Your task to perform on an android device: Add "dell xps" to the cart on bestbuy, then select checkout. Image 0: 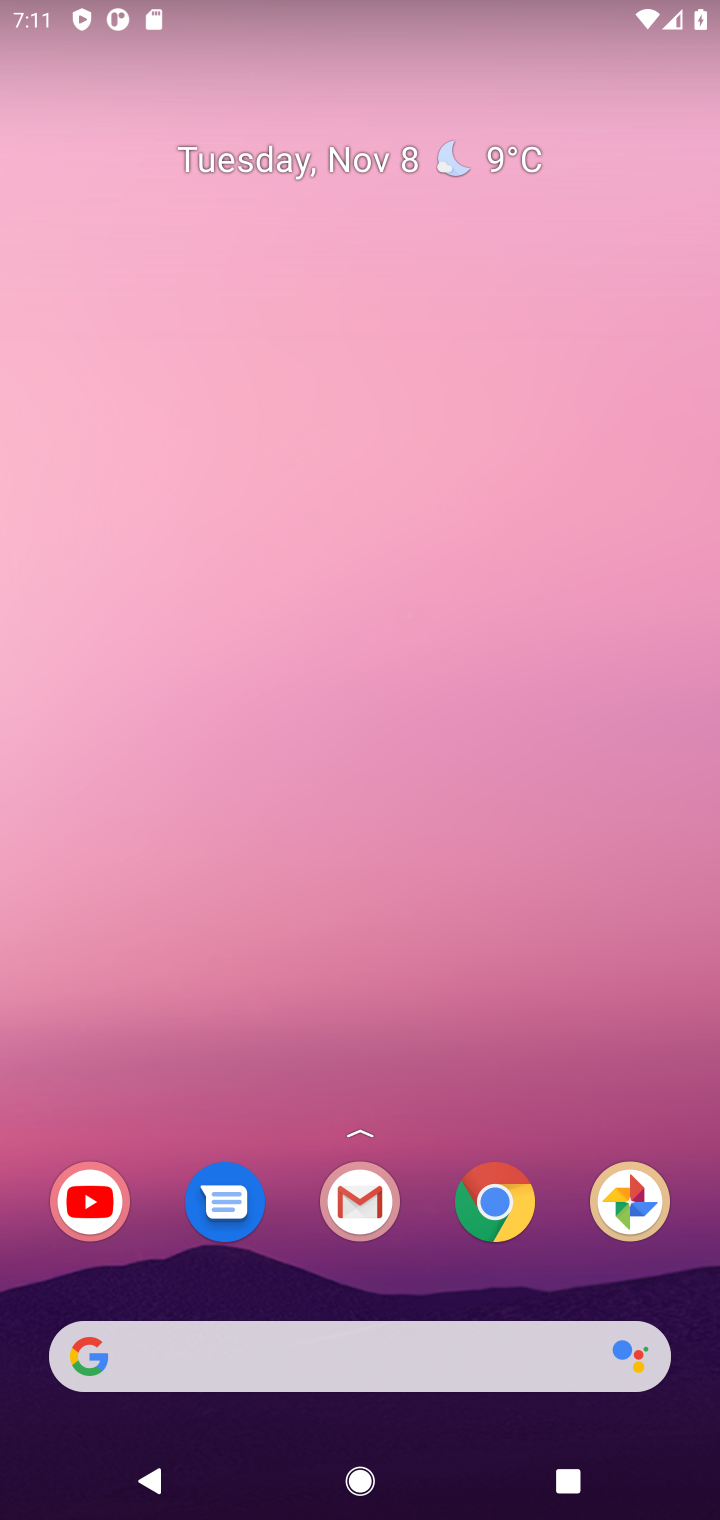
Step 0: click (294, 1347)
Your task to perform on an android device: Add "dell xps" to the cart on bestbuy, then select checkout. Image 1: 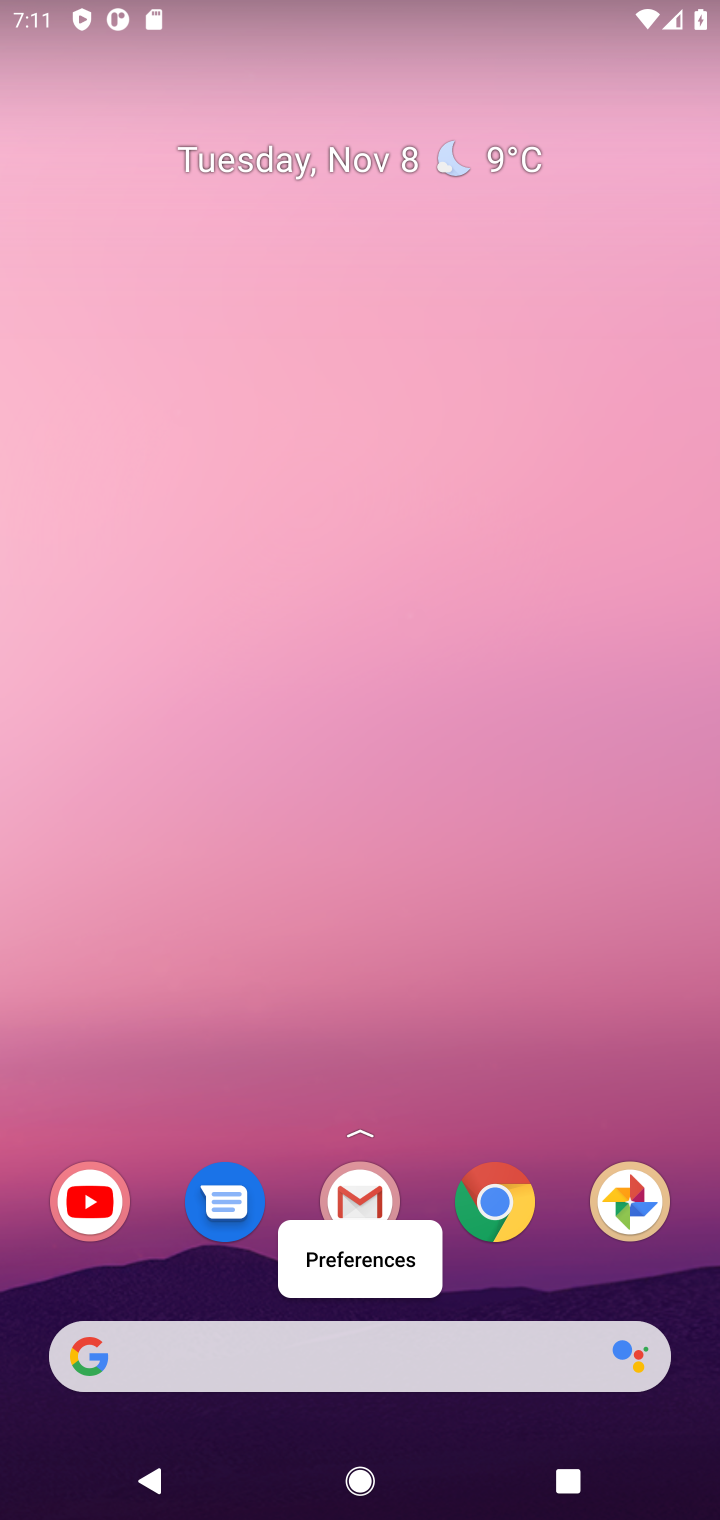
Step 1: click (294, 1347)
Your task to perform on an android device: Add "dell xps" to the cart on bestbuy, then select checkout. Image 2: 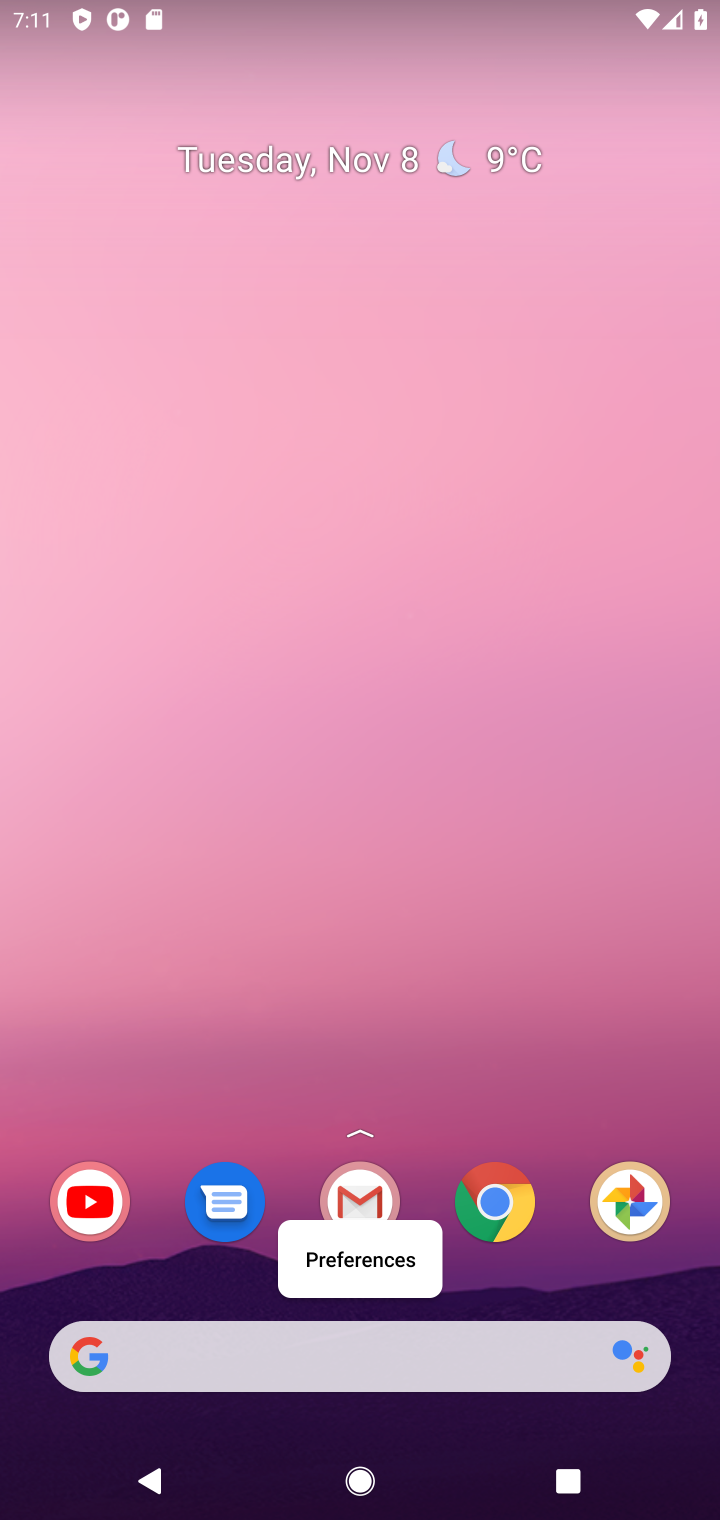
Step 2: click (319, 1355)
Your task to perform on an android device: Add "dell xps" to the cart on bestbuy, then select checkout. Image 3: 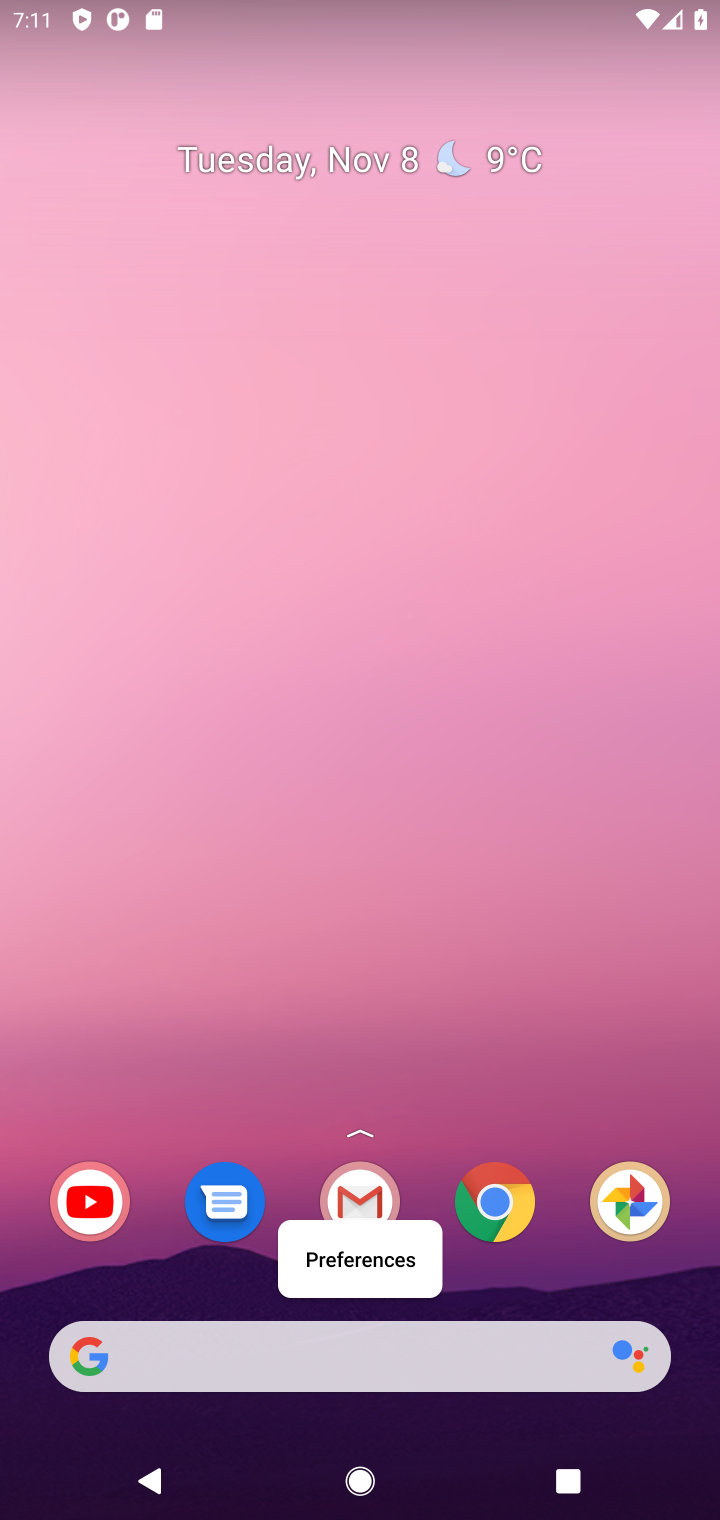
Step 3: click (321, 1353)
Your task to perform on an android device: Add "dell xps" to the cart on bestbuy, then select checkout. Image 4: 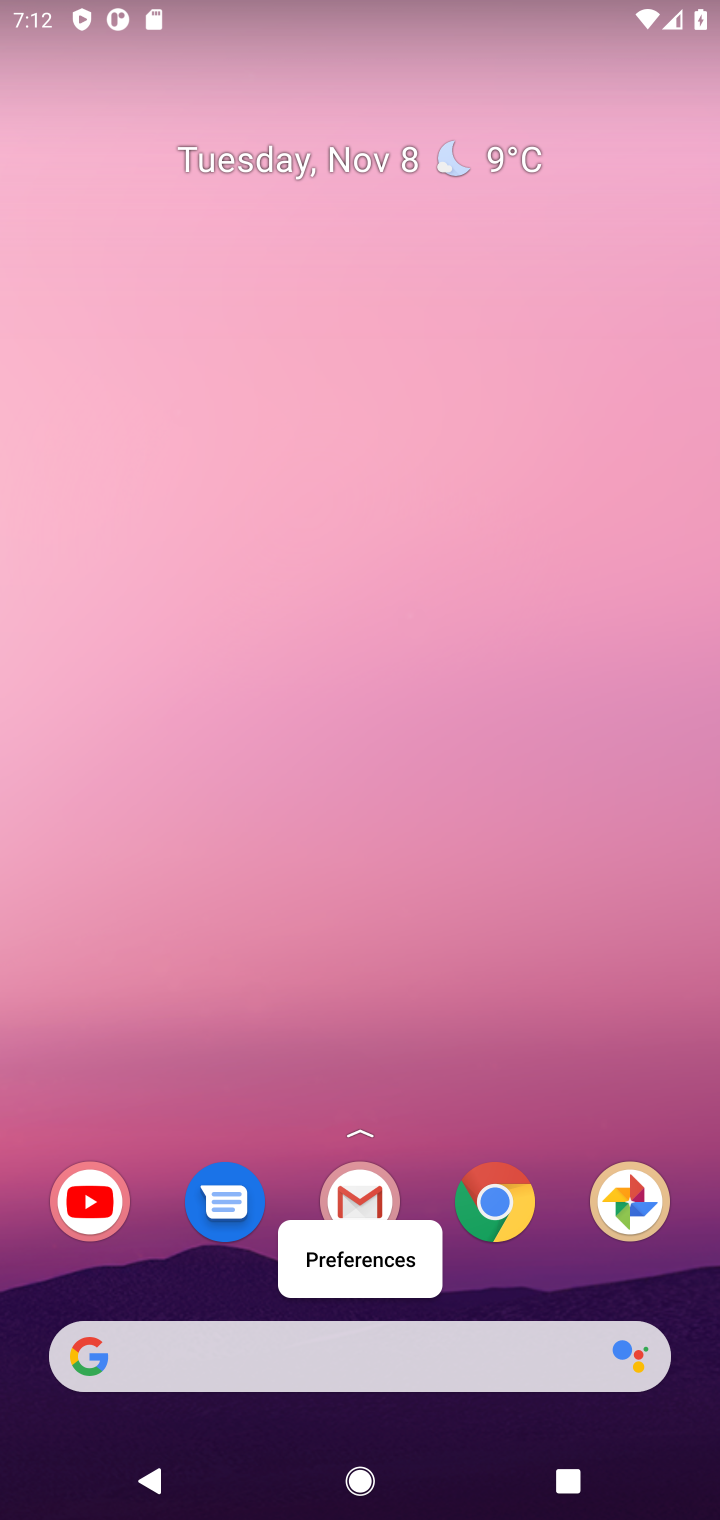
Step 4: click (321, 1353)
Your task to perform on an android device: Add "dell xps" to the cart on bestbuy, then select checkout. Image 5: 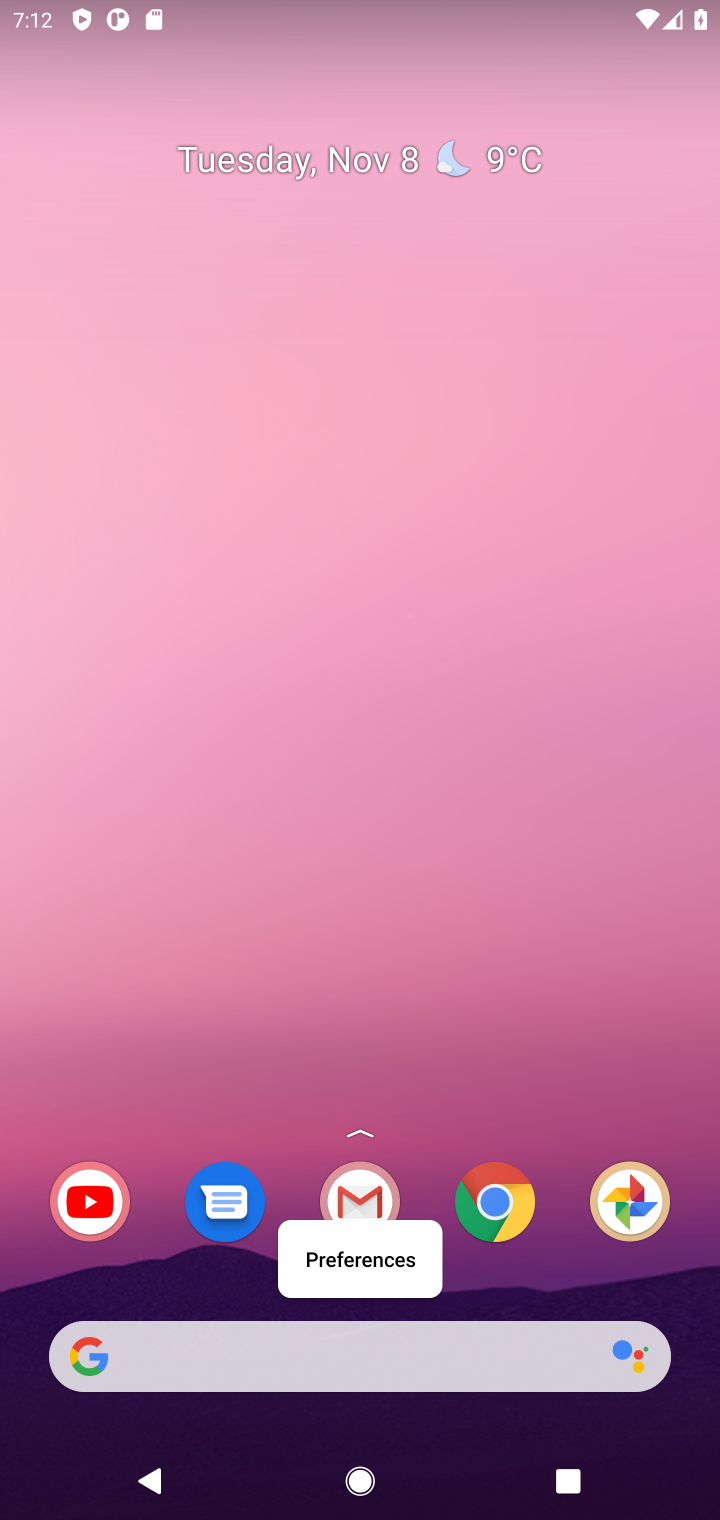
Step 5: click (321, 1353)
Your task to perform on an android device: Add "dell xps" to the cart on bestbuy, then select checkout. Image 6: 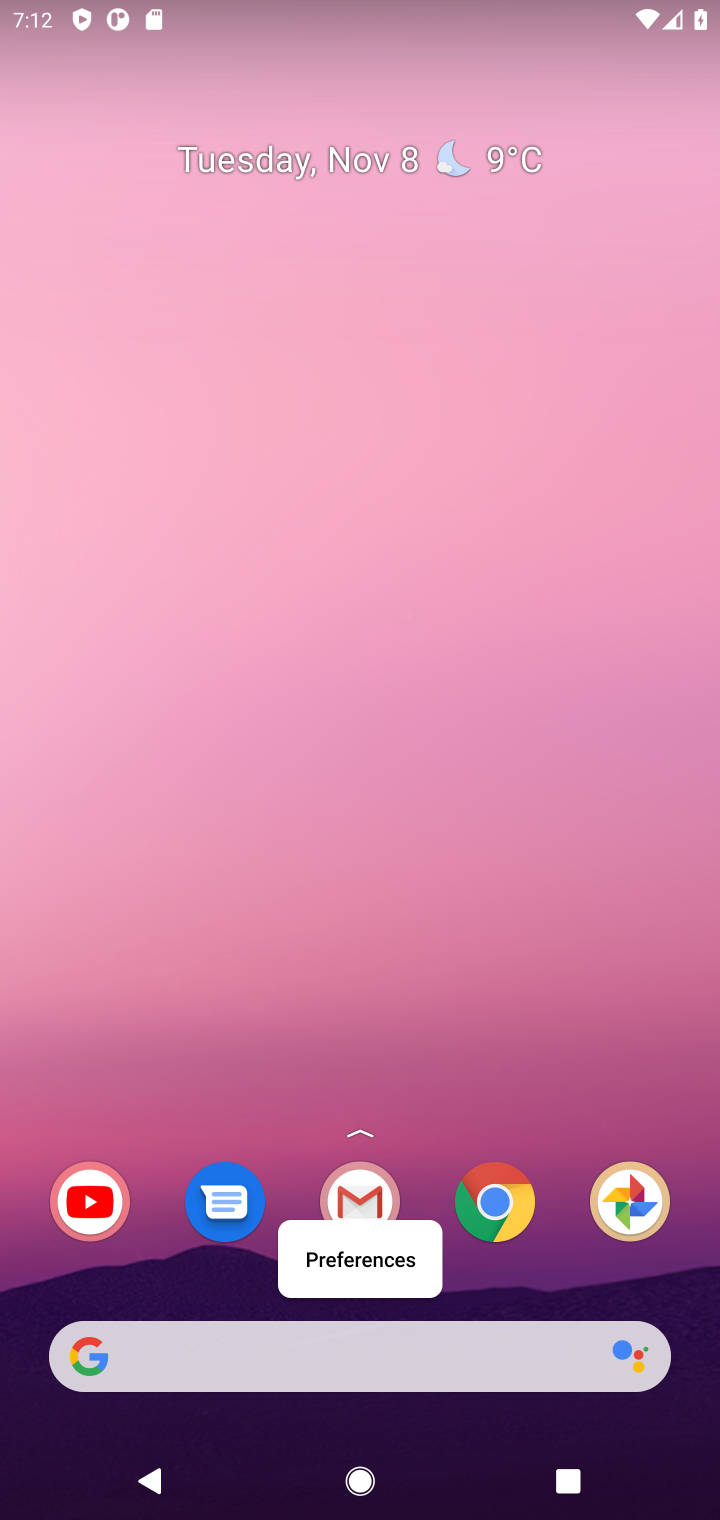
Step 6: click (512, 883)
Your task to perform on an android device: Add "dell xps" to the cart on bestbuy, then select checkout. Image 7: 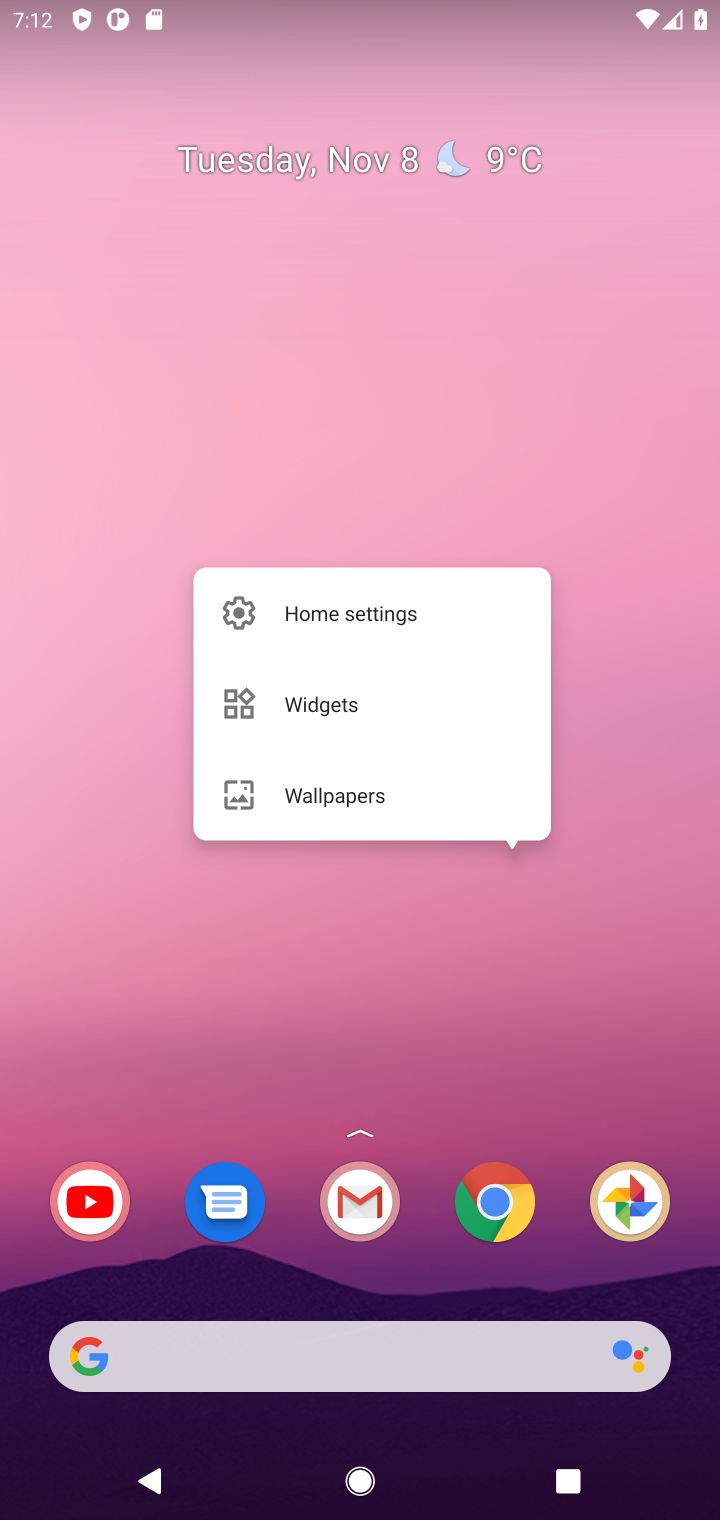
Step 7: click (307, 1357)
Your task to perform on an android device: Add "dell xps" to the cart on bestbuy, then select checkout. Image 8: 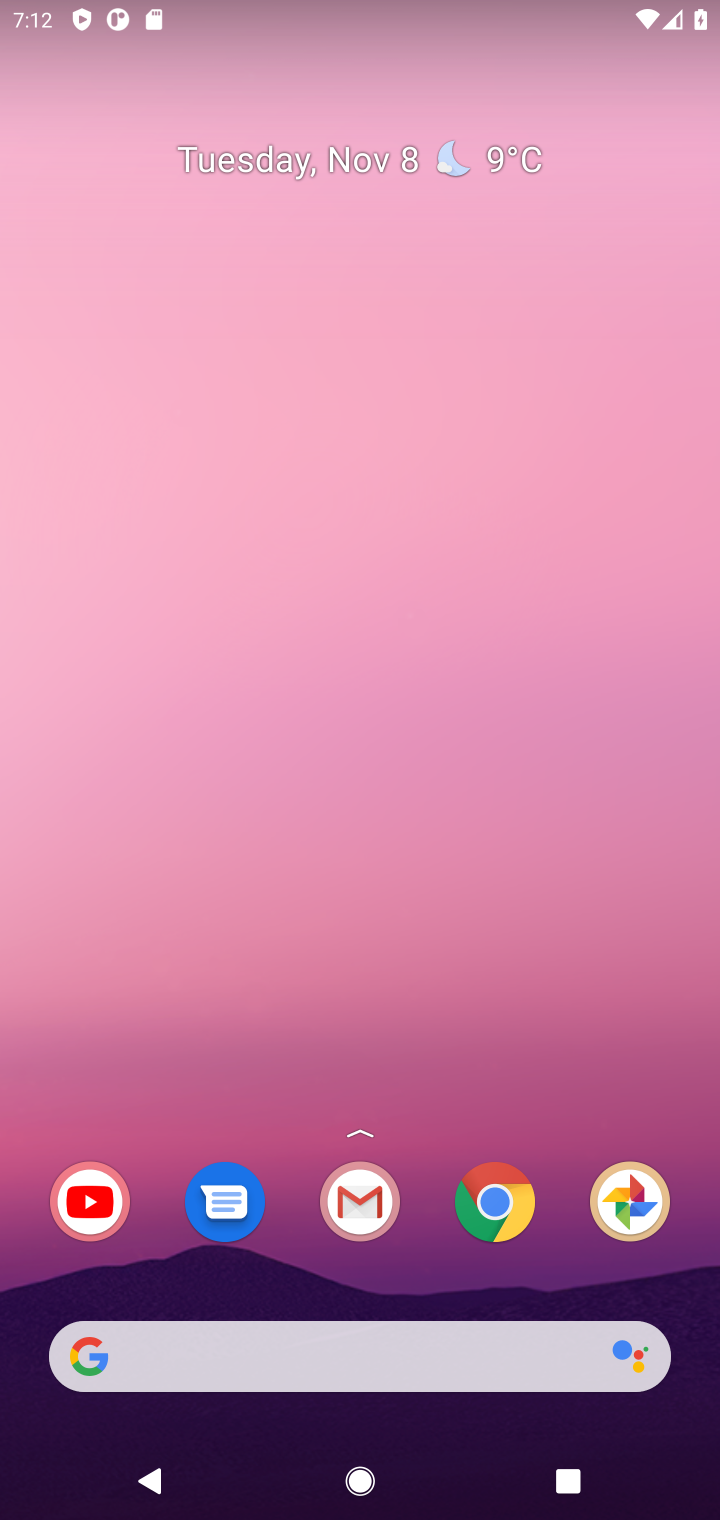
Step 8: click (307, 1357)
Your task to perform on an android device: Add "dell xps" to the cart on bestbuy, then select checkout. Image 9: 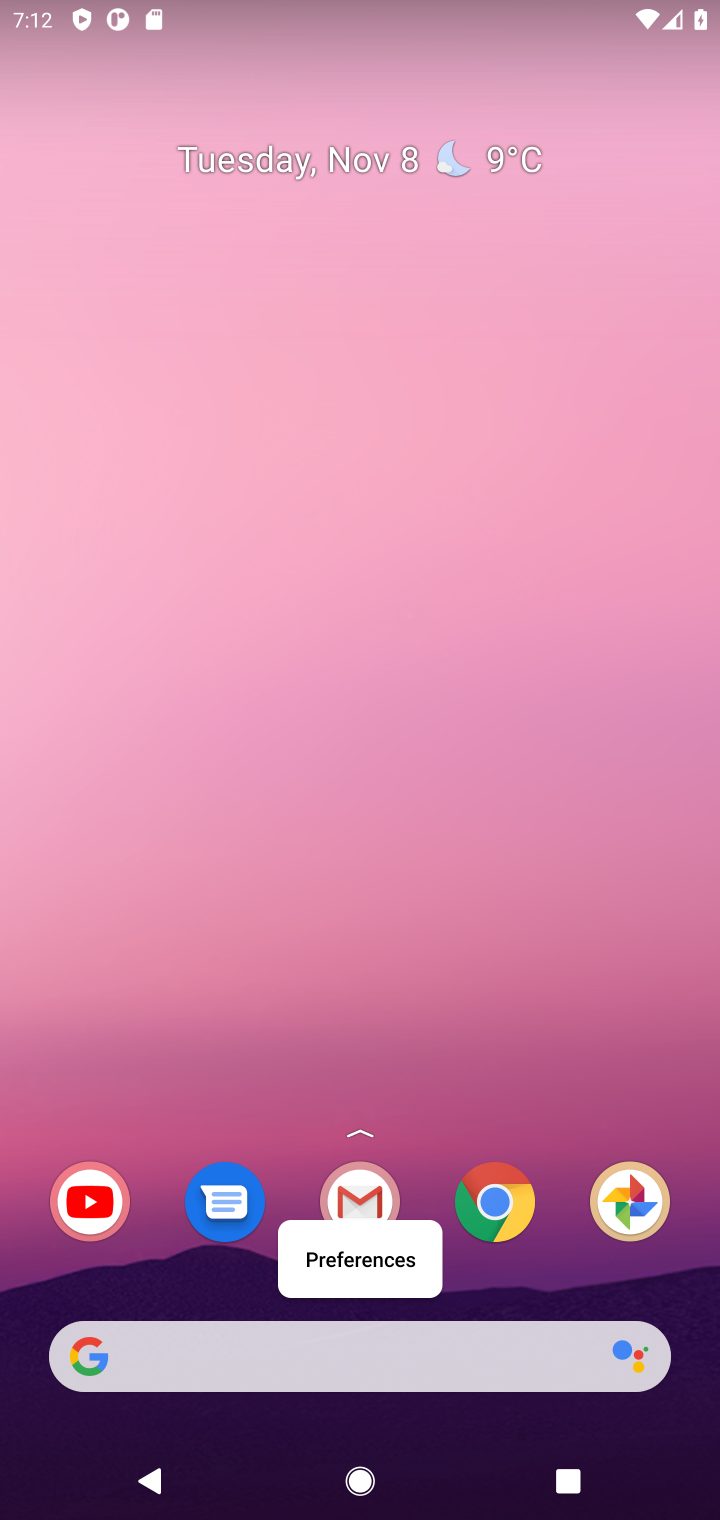
Step 9: click (307, 1357)
Your task to perform on an android device: Add "dell xps" to the cart on bestbuy, then select checkout. Image 10: 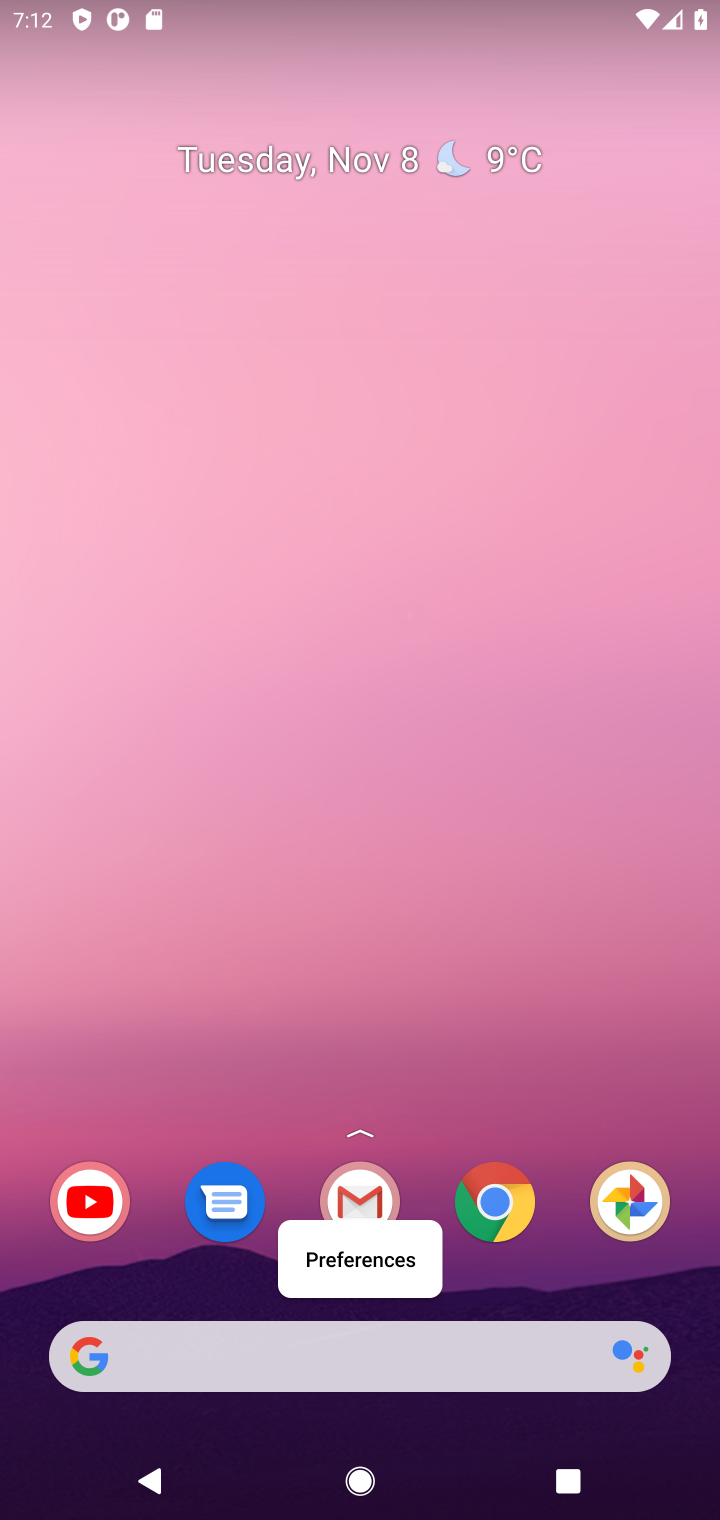
Step 10: click (260, 1359)
Your task to perform on an android device: Add "dell xps" to the cart on bestbuy, then select checkout. Image 11: 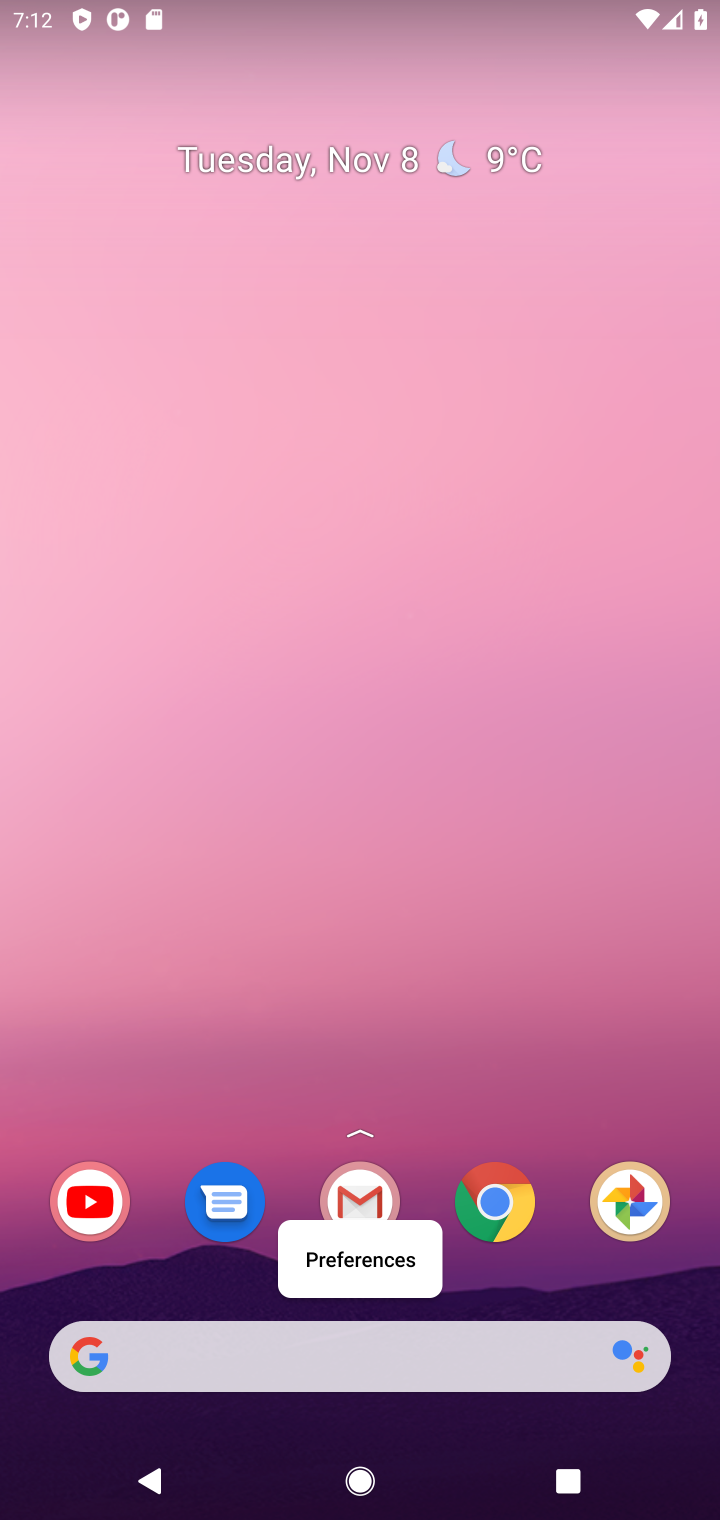
Step 11: click (260, 1359)
Your task to perform on an android device: Add "dell xps" to the cart on bestbuy, then select checkout. Image 12: 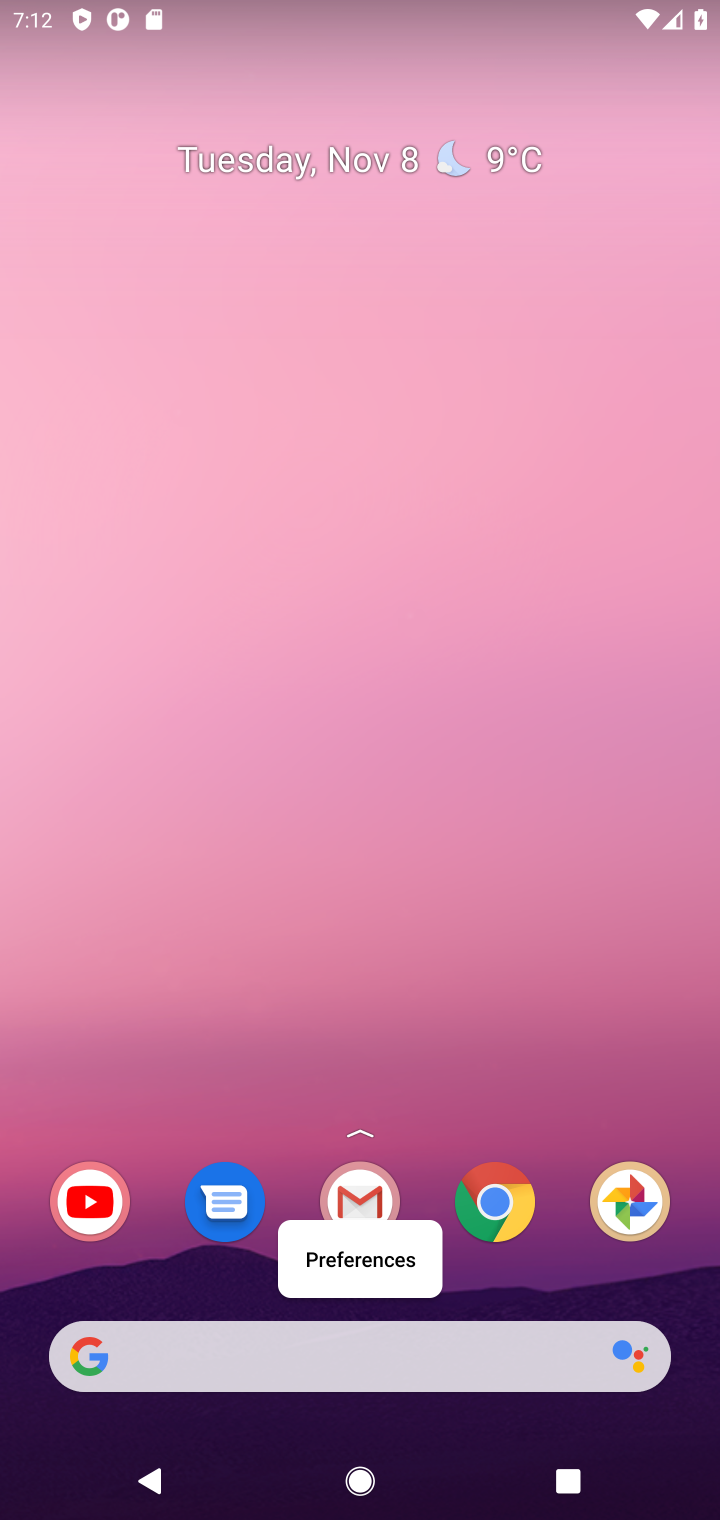
Step 12: click (94, 1119)
Your task to perform on an android device: Add "dell xps" to the cart on bestbuy, then select checkout. Image 13: 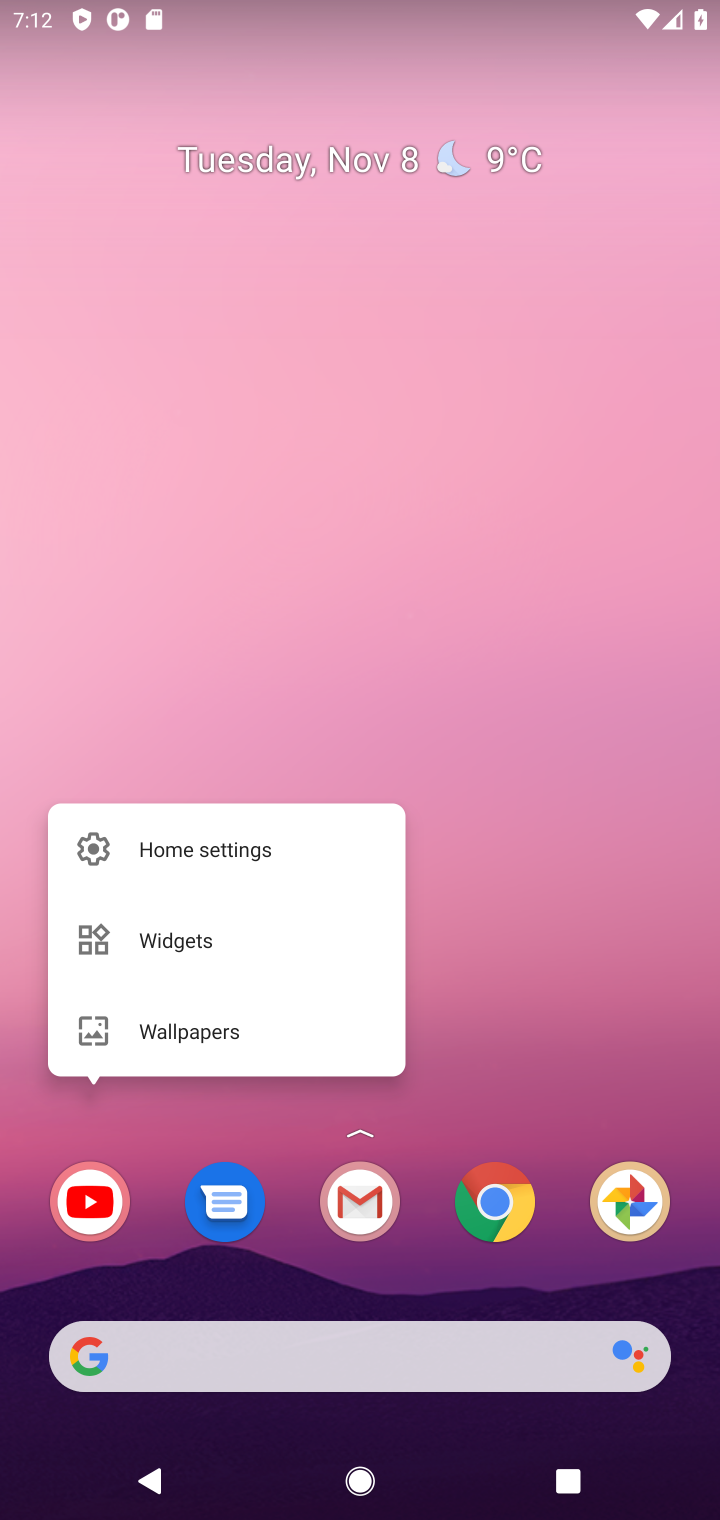
Step 13: click (195, 1342)
Your task to perform on an android device: Add "dell xps" to the cart on bestbuy, then select checkout. Image 14: 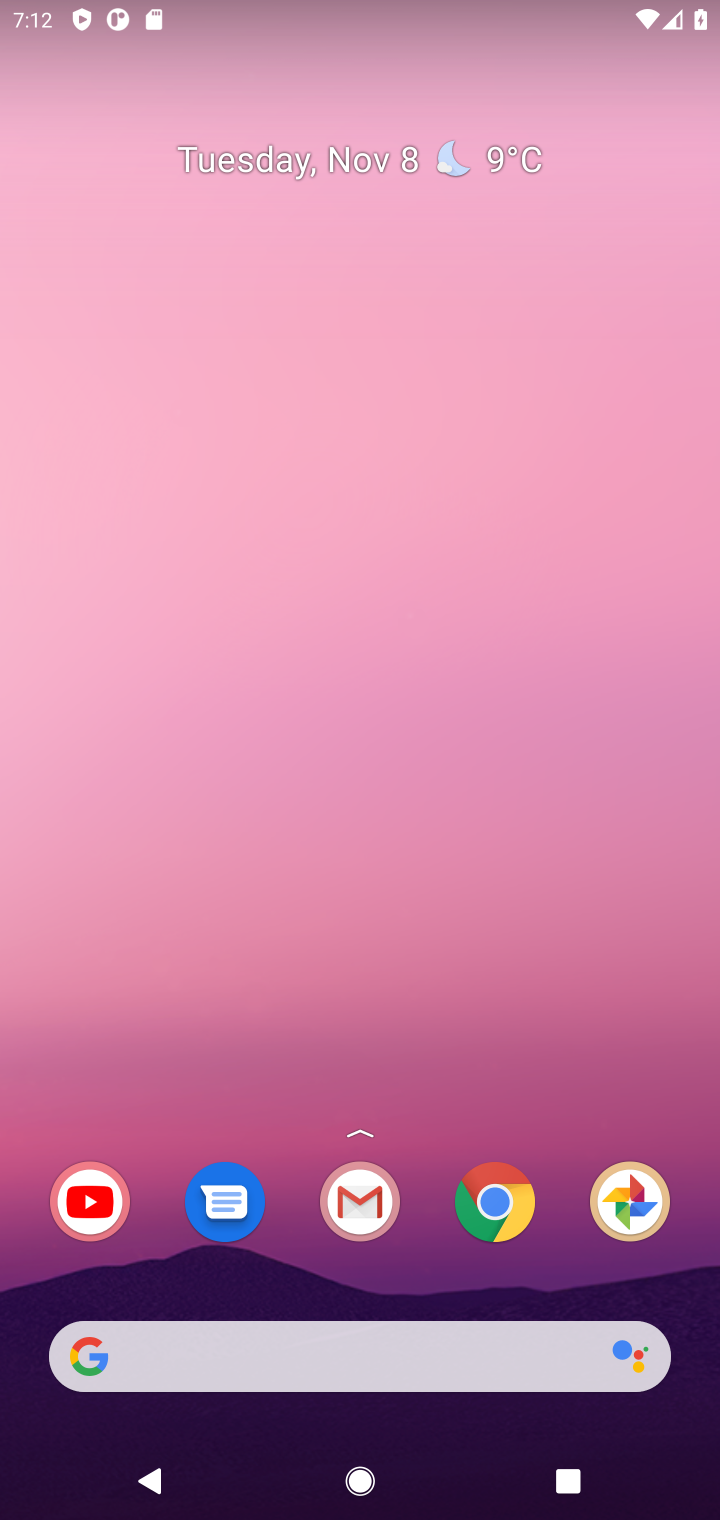
Step 14: click (482, 1213)
Your task to perform on an android device: Add "dell xps" to the cart on bestbuy, then select checkout. Image 15: 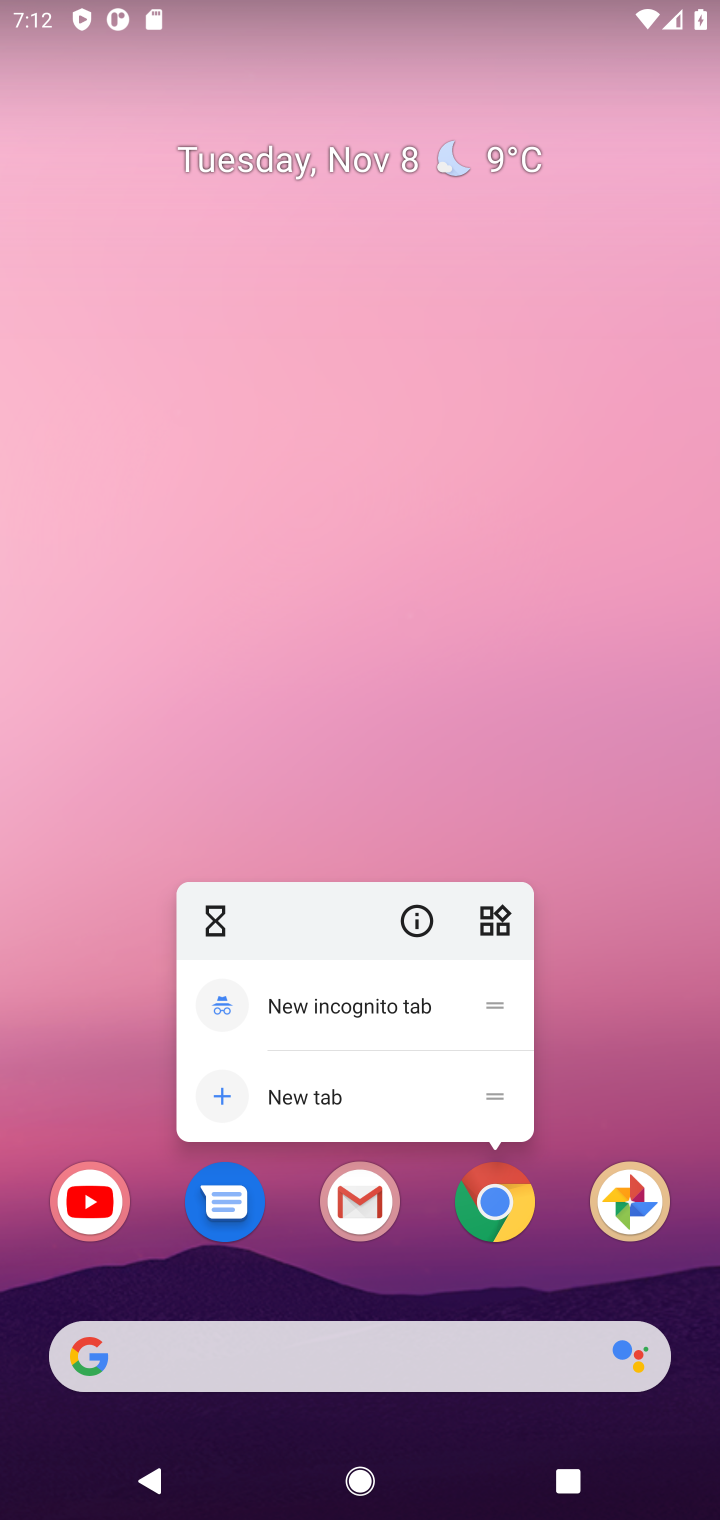
Step 15: click (485, 1211)
Your task to perform on an android device: Add "dell xps" to the cart on bestbuy, then select checkout. Image 16: 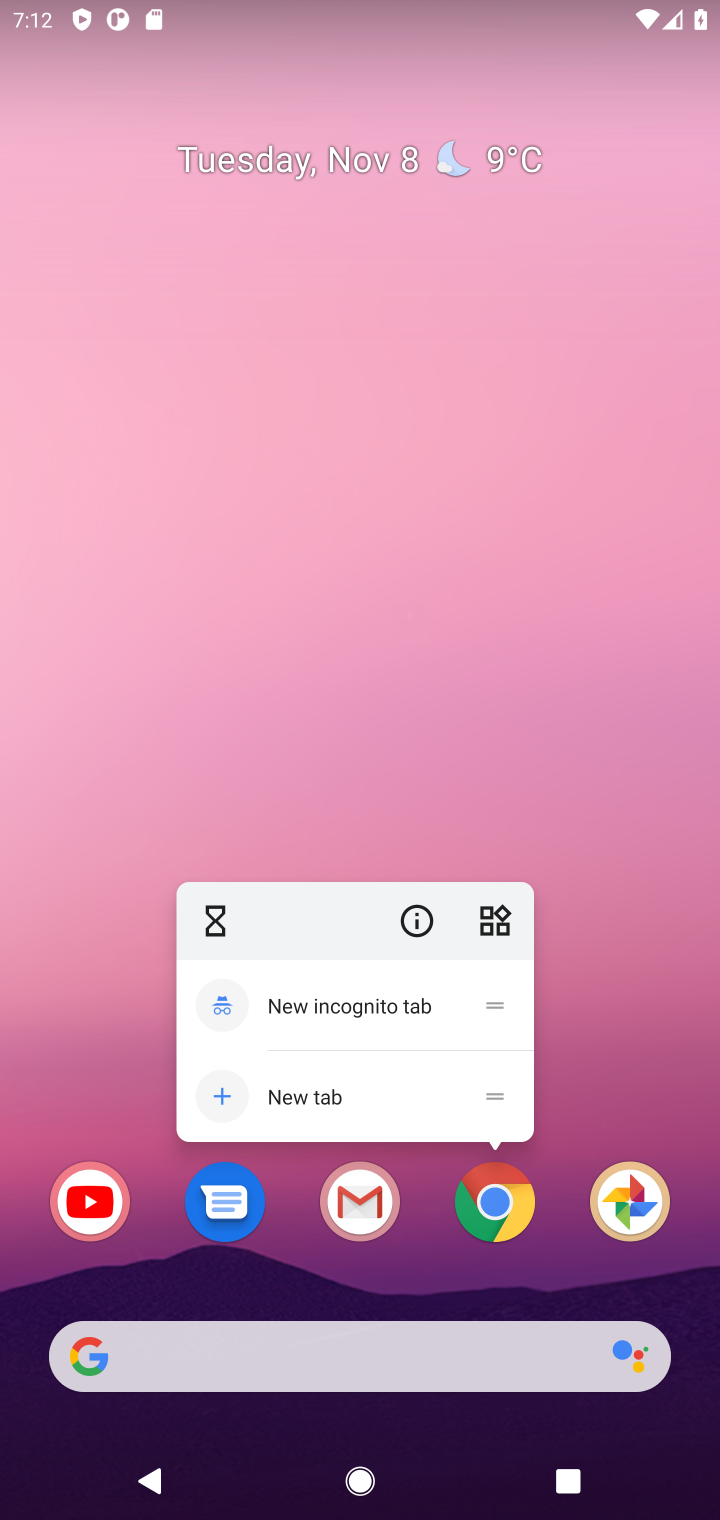
Step 16: click (480, 1197)
Your task to perform on an android device: Add "dell xps" to the cart on bestbuy, then select checkout. Image 17: 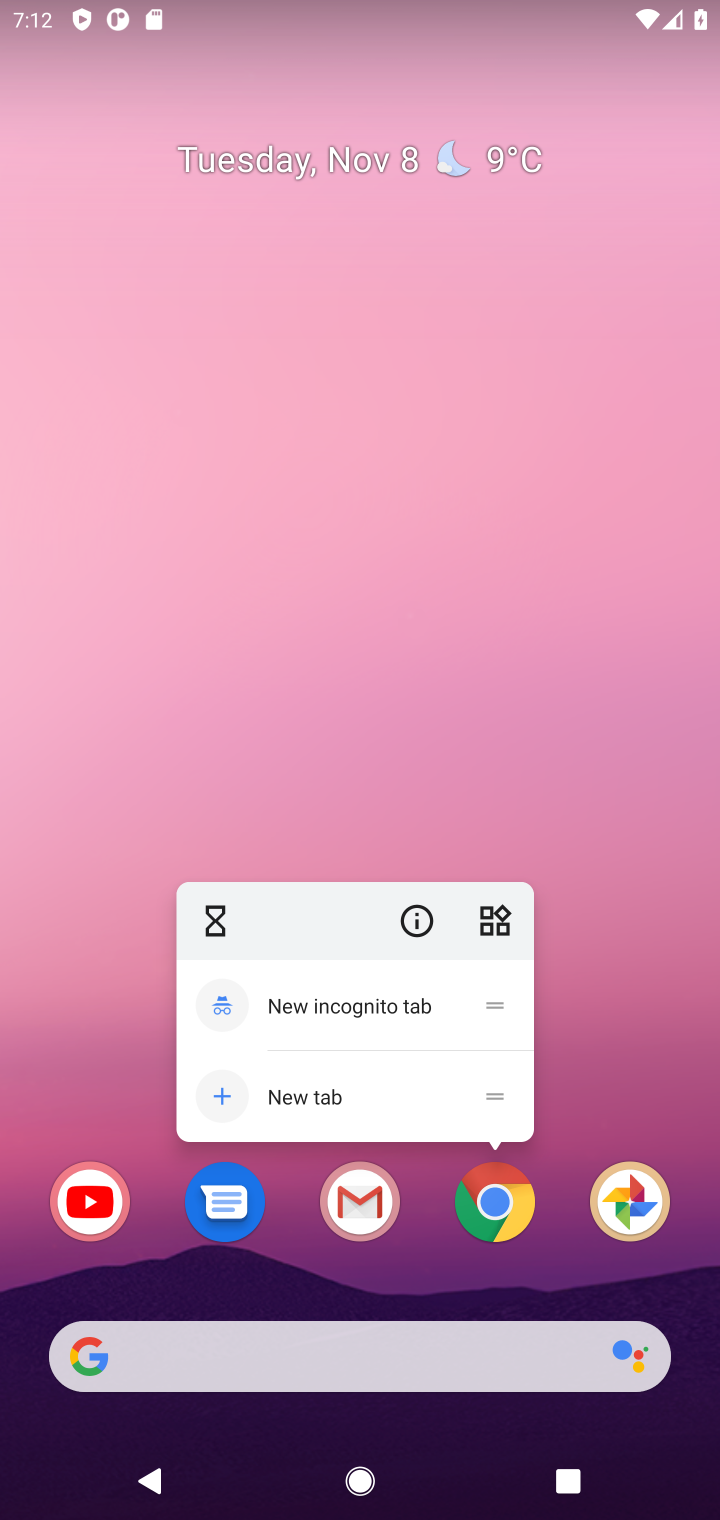
Step 17: click (344, 1340)
Your task to perform on an android device: Add "dell xps" to the cart on bestbuy, then select checkout. Image 18: 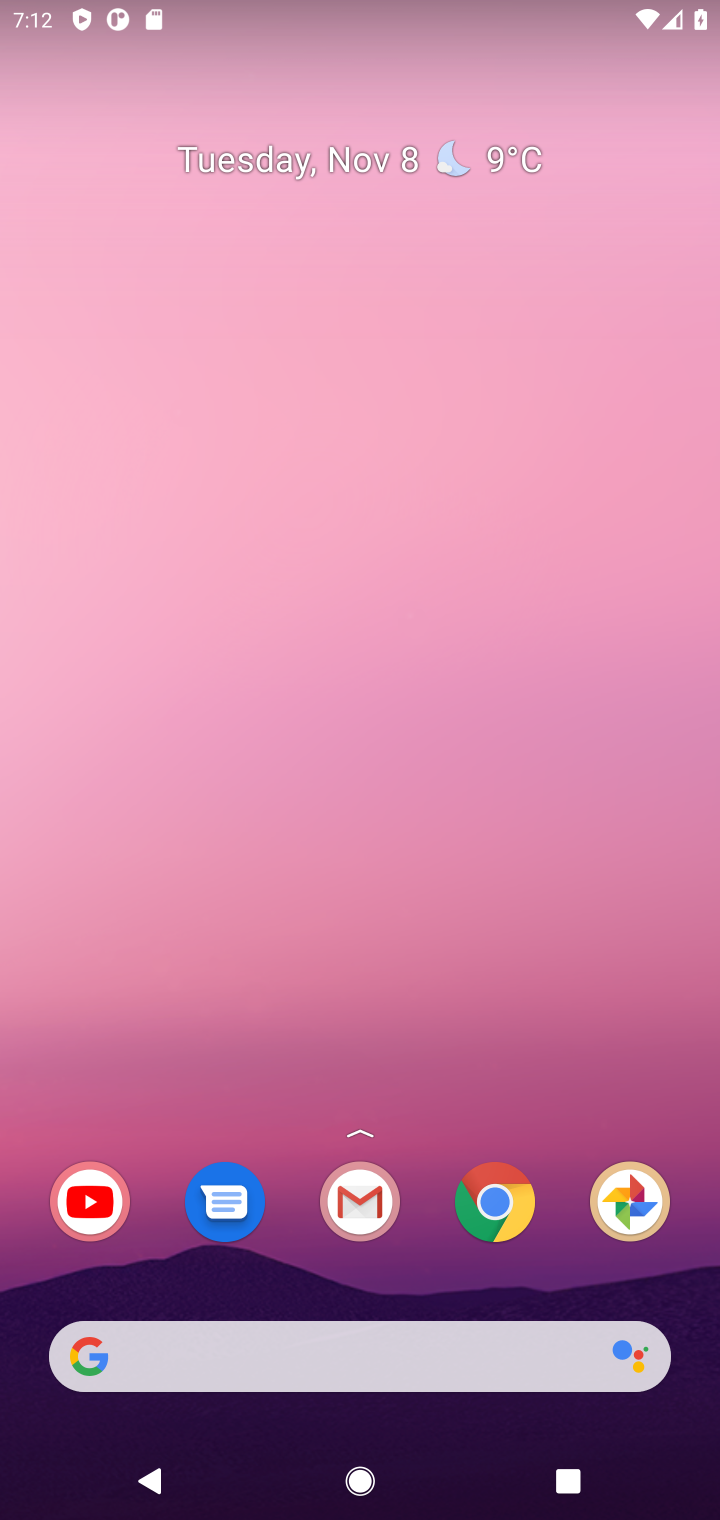
Step 18: click (344, 1340)
Your task to perform on an android device: Add "dell xps" to the cart on bestbuy, then select checkout. Image 19: 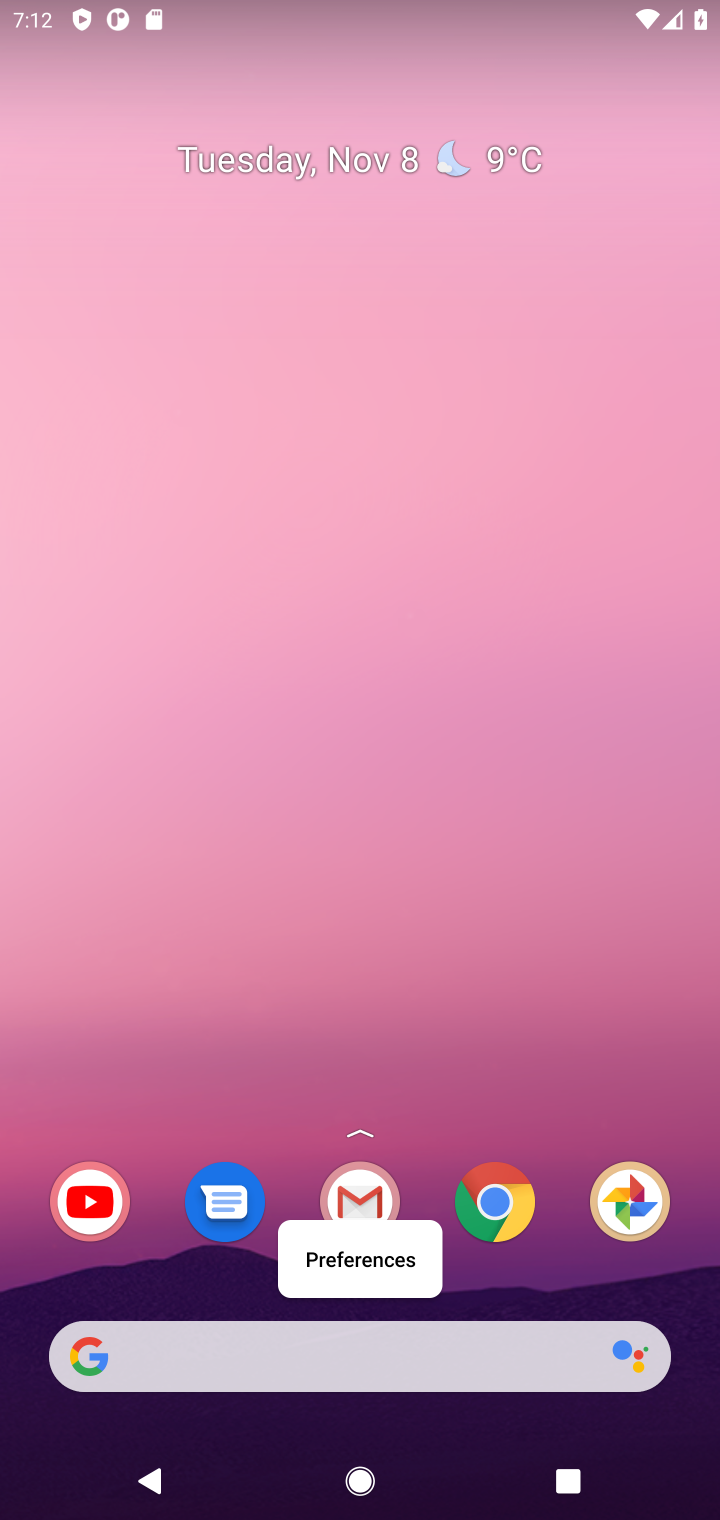
Step 19: click (273, 1354)
Your task to perform on an android device: Add "dell xps" to the cart on bestbuy, then select checkout. Image 20: 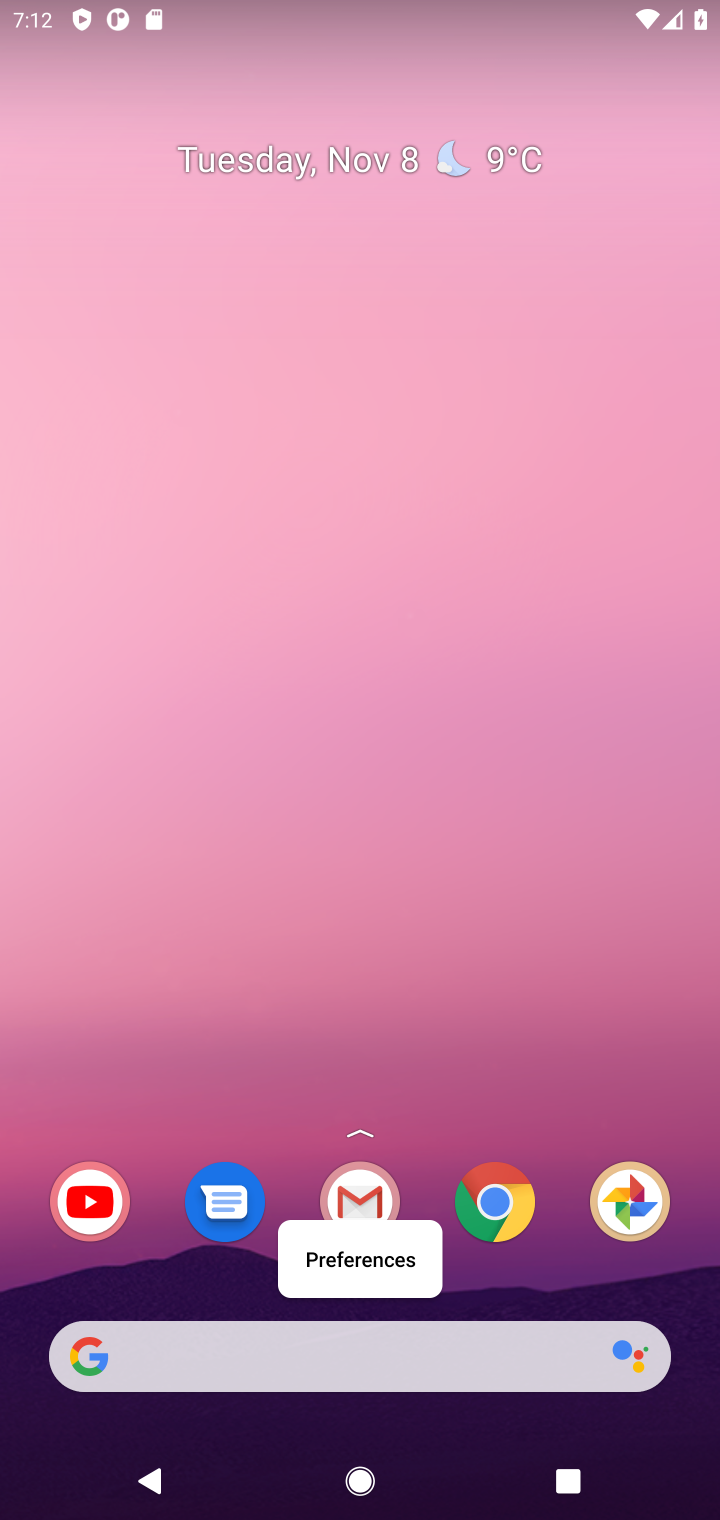
Step 20: click (275, 1352)
Your task to perform on an android device: Add "dell xps" to the cart on bestbuy, then select checkout. Image 21: 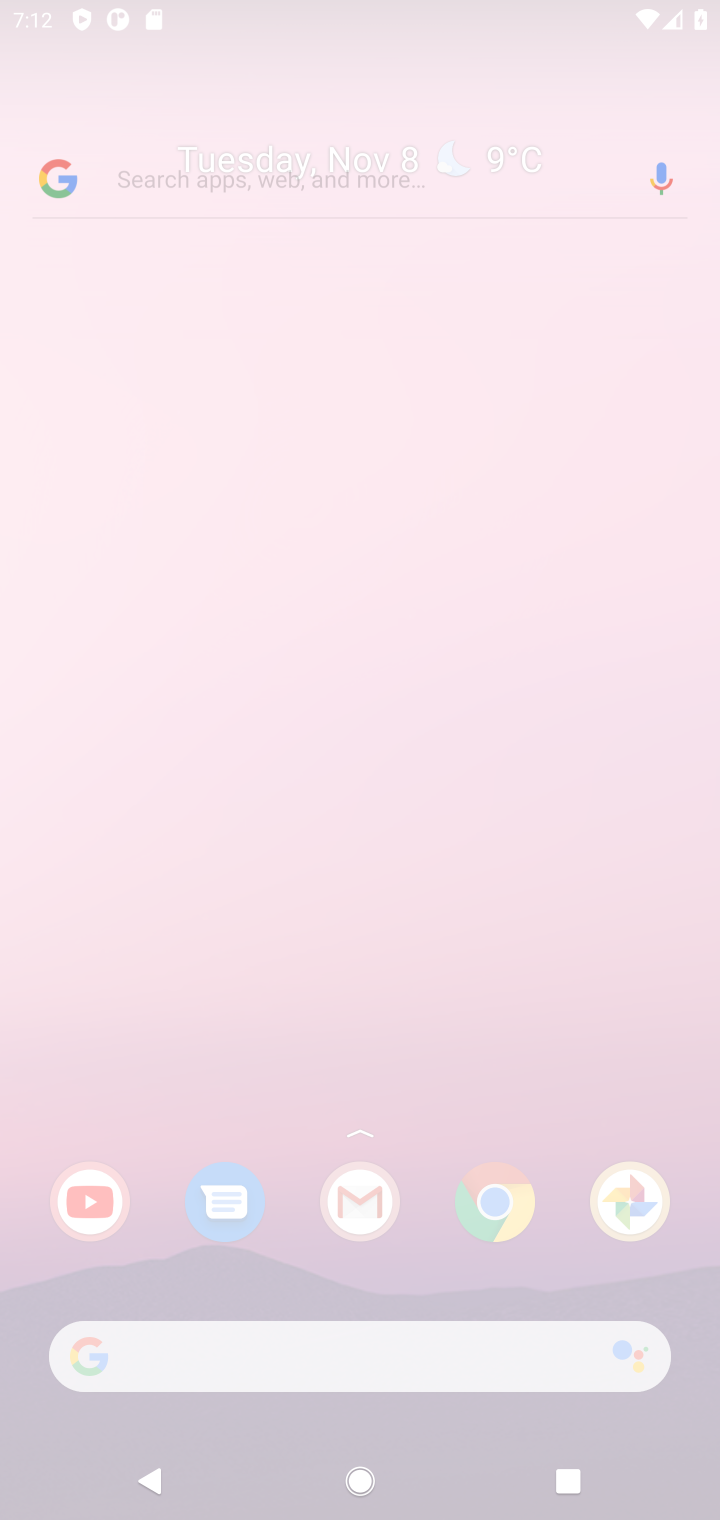
Step 21: click (275, 1352)
Your task to perform on an android device: Add "dell xps" to the cart on bestbuy, then select checkout. Image 22: 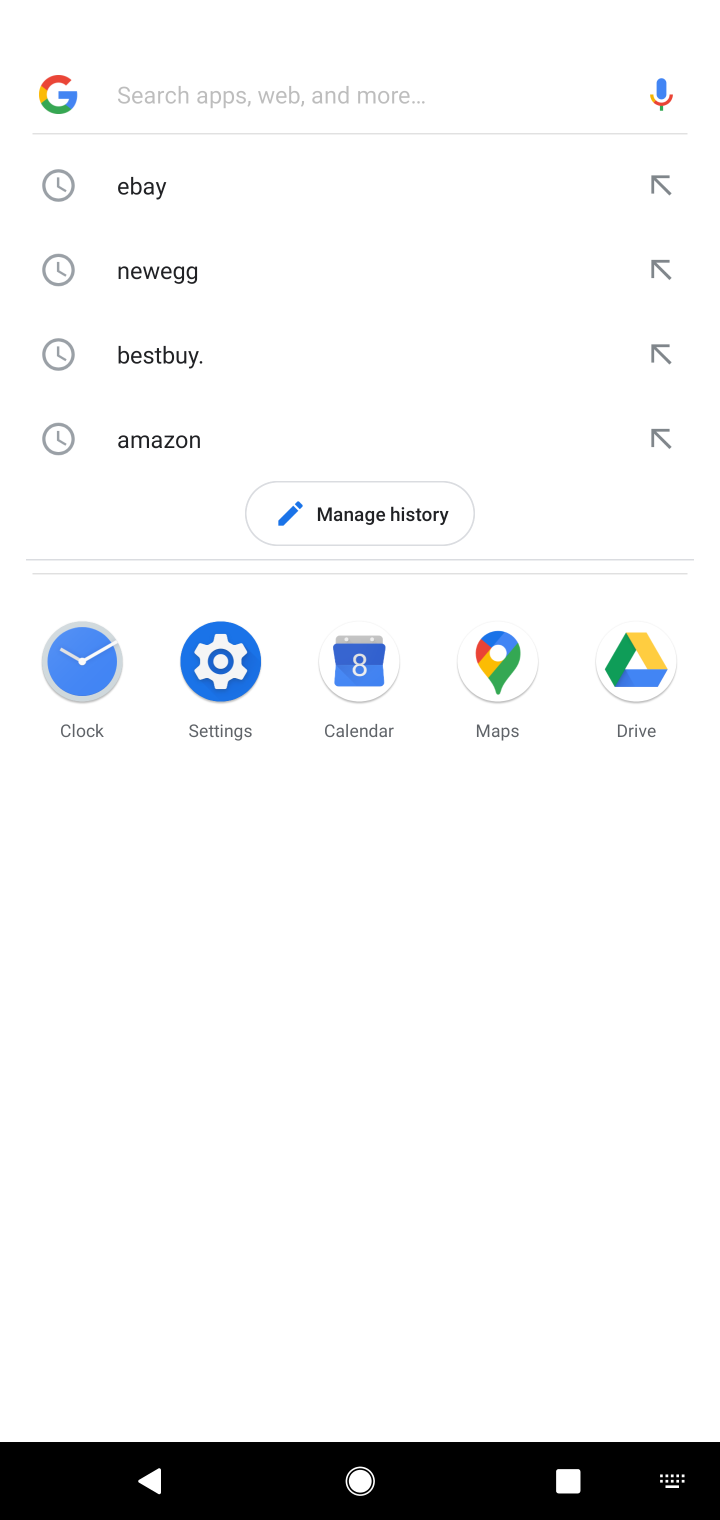
Step 22: type " bestbuy"
Your task to perform on an android device: Add "dell xps" to the cart on bestbuy, then select checkout. Image 23: 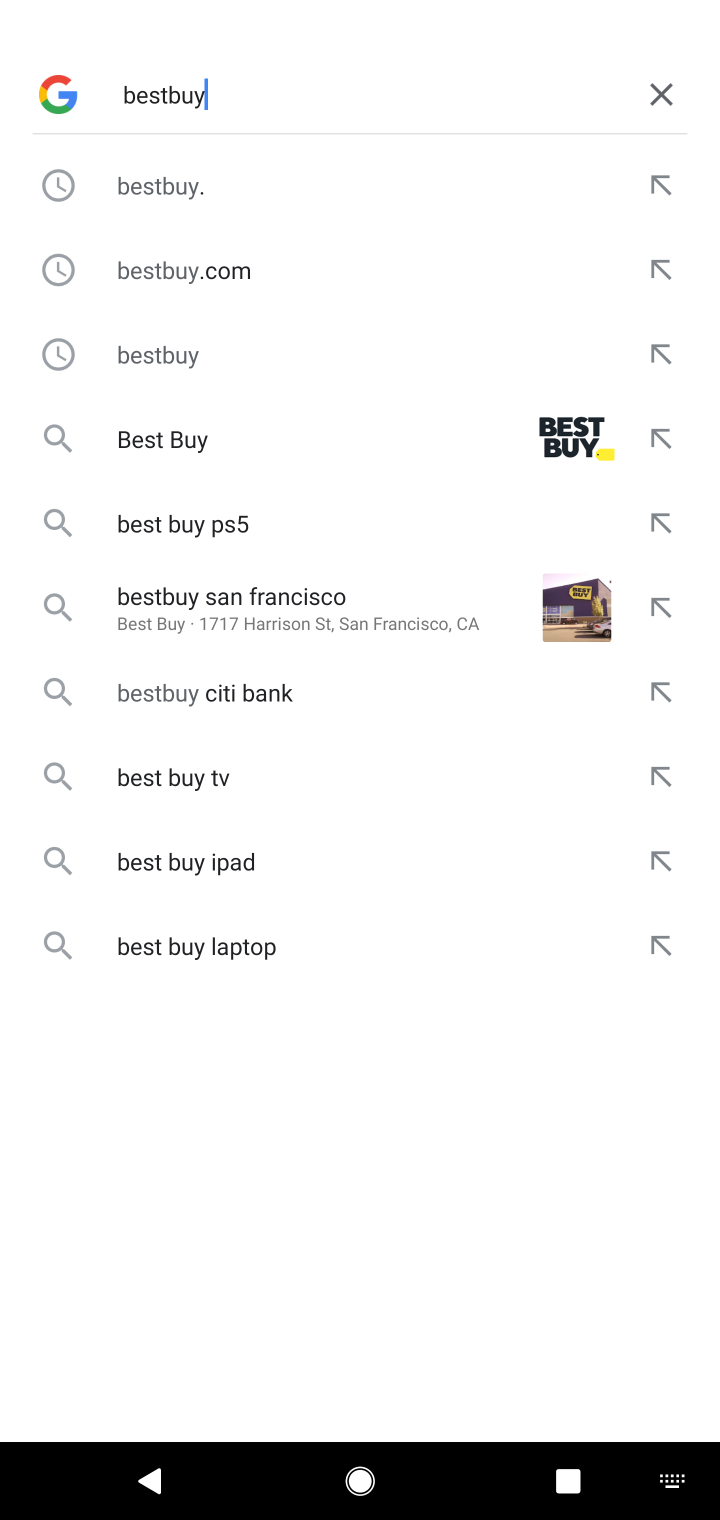
Step 23: press enter
Your task to perform on an android device: Add "dell xps" to the cart on bestbuy, then select checkout. Image 24: 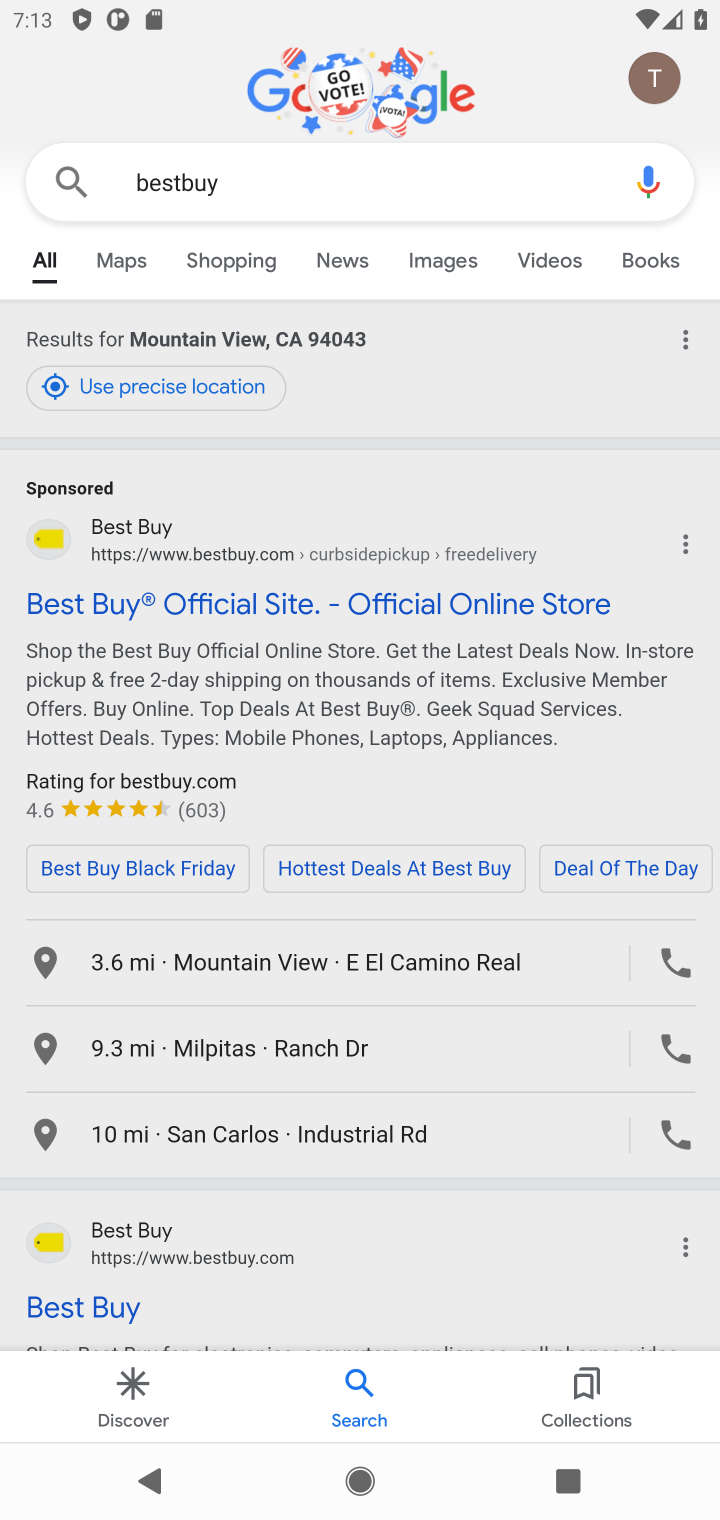
Step 24: click (175, 610)
Your task to perform on an android device: Add "dell xps" to the cart on bestbuy, then select checkout. Image 25: 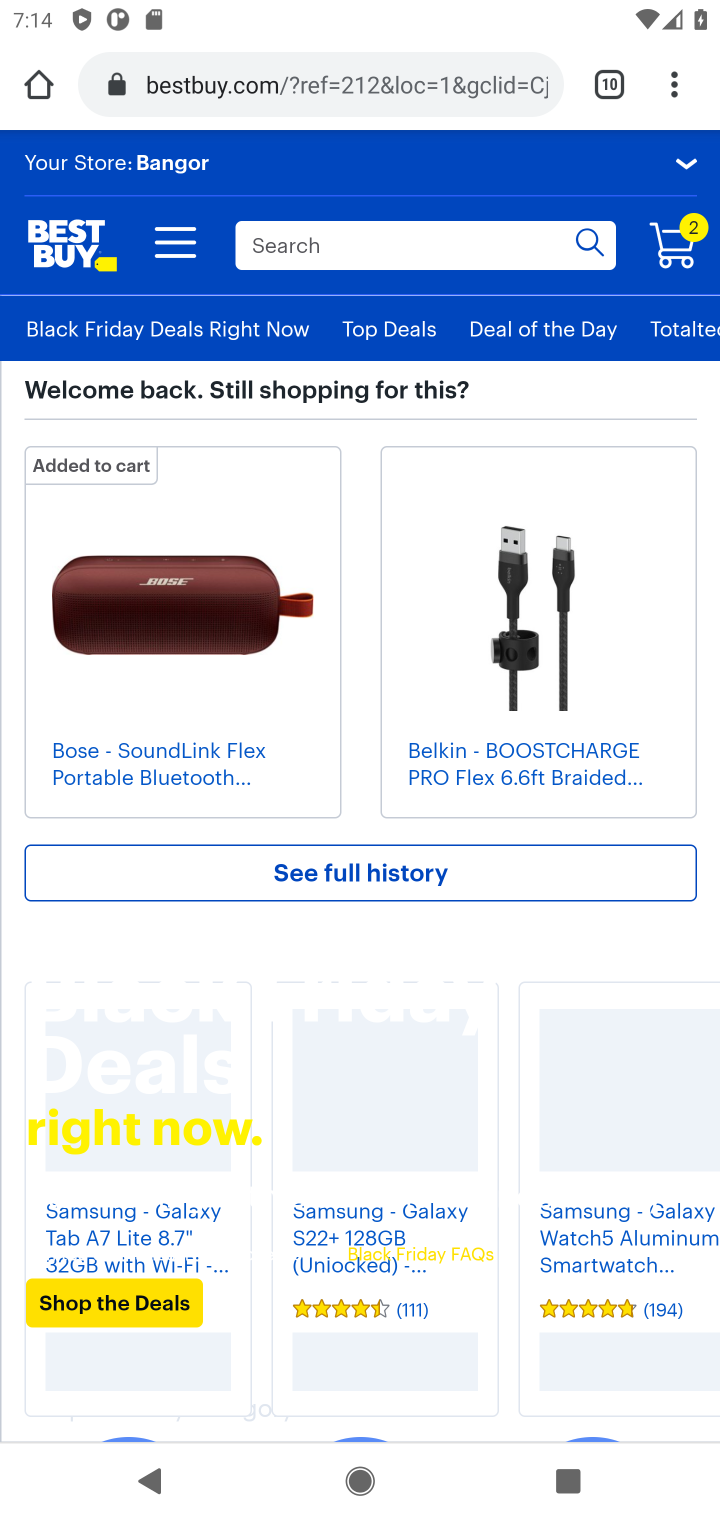
Step 25: click (170, 601)
Your task to perform on an android device: Add "dell xps" to the cart on bestbuy, then select checkout. Image 26: 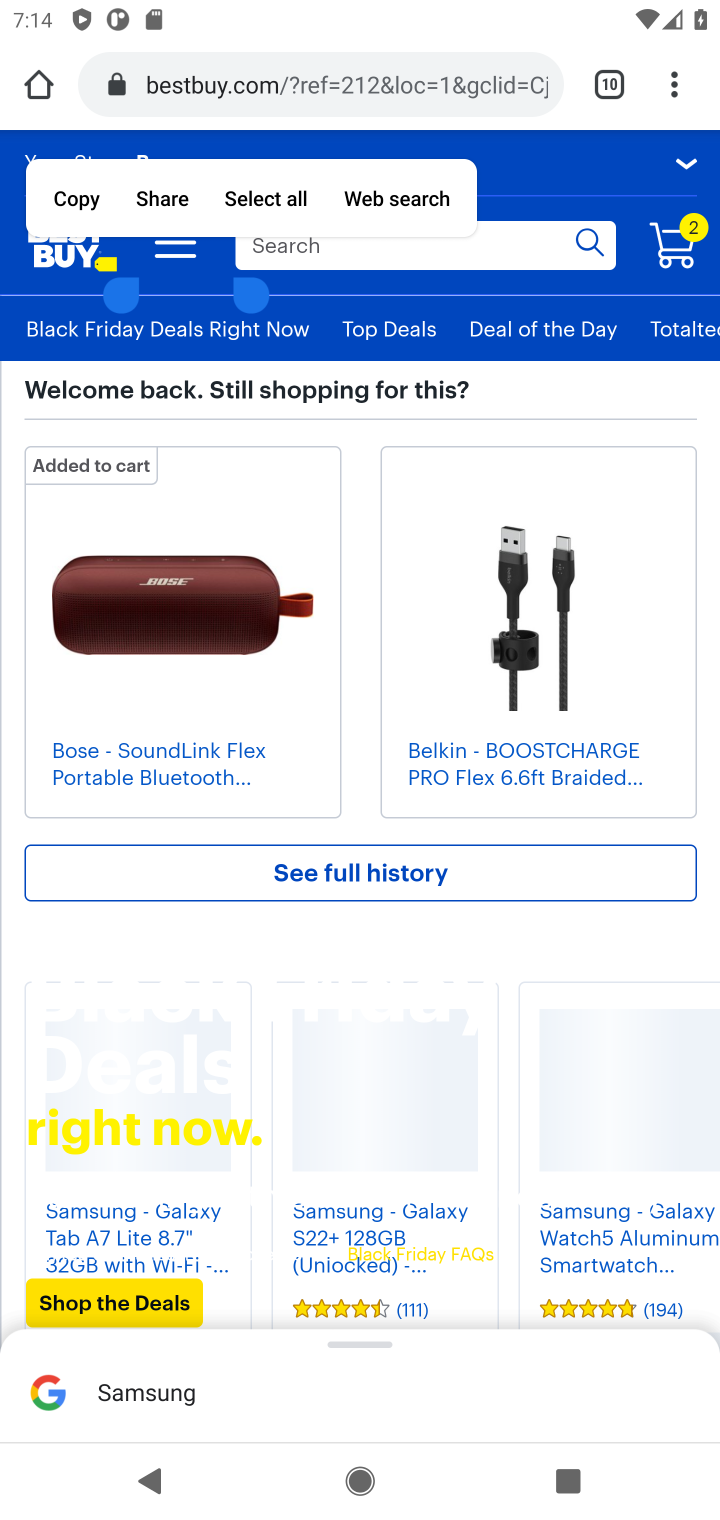
Step 26: click (402, 257)
Your task to perform on an android device: Add "dell xps" to the cart on bestbuy, then select checkout. Image 27: 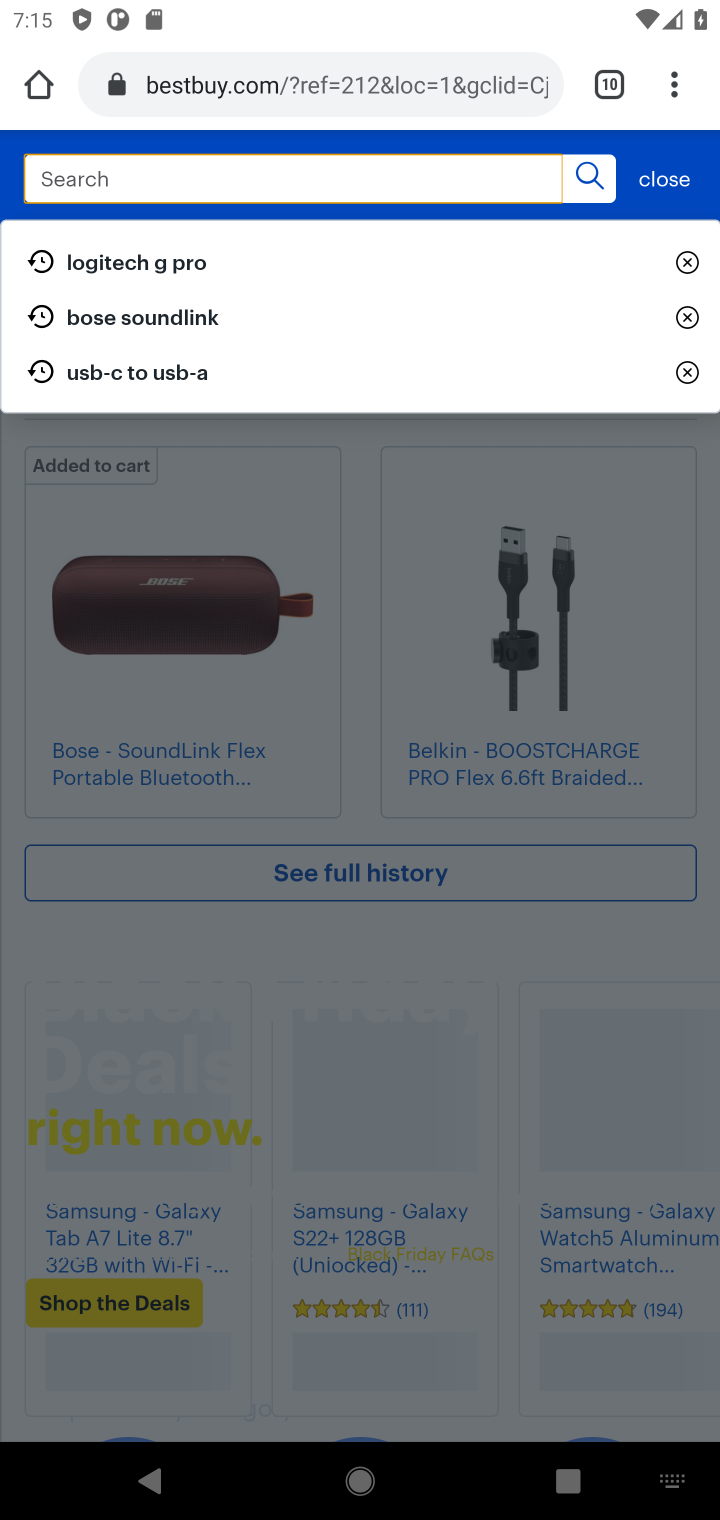
Step 27: type "dell xps"
Your task to perform on an android device: Add "dell xps" to the cart on bestbuy, then select checkout. Image 28: 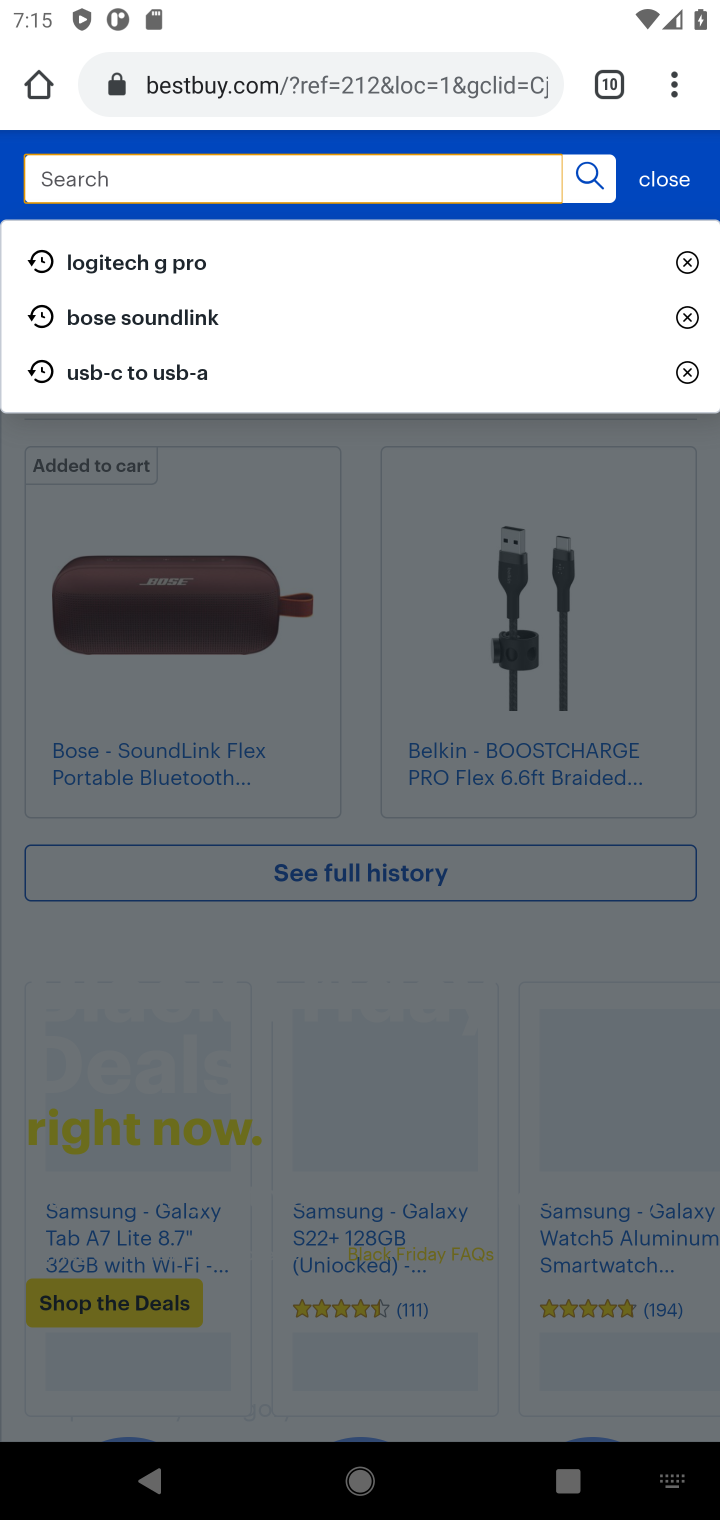
Step 28: type ""
Your task to perform on an android device: Add "dell xps" to the cart on bestbuy, then select checkout. Image 29: 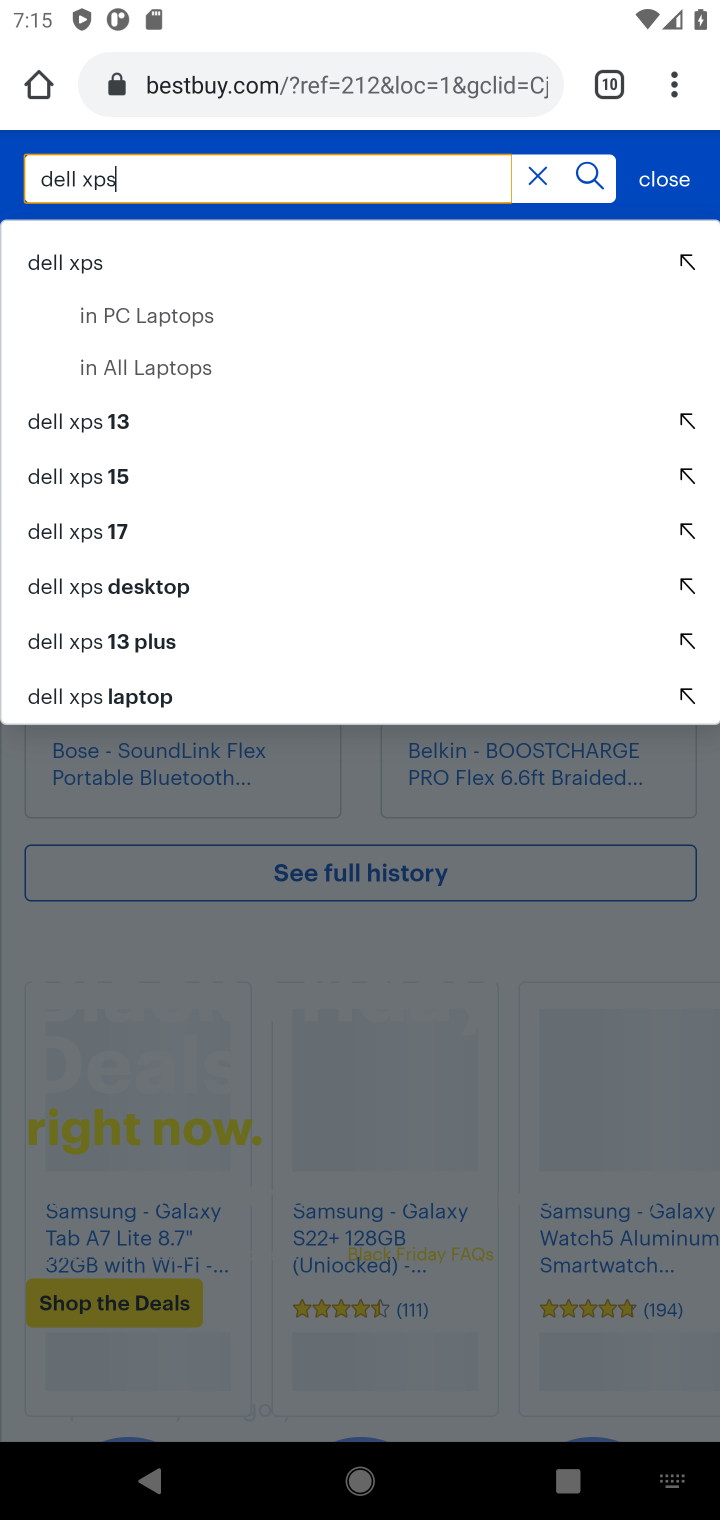
Step 29: press enter
Your task to perform on an android device: Add "dell xps" to the cart on bestbuy, then select checkout. Image 30: 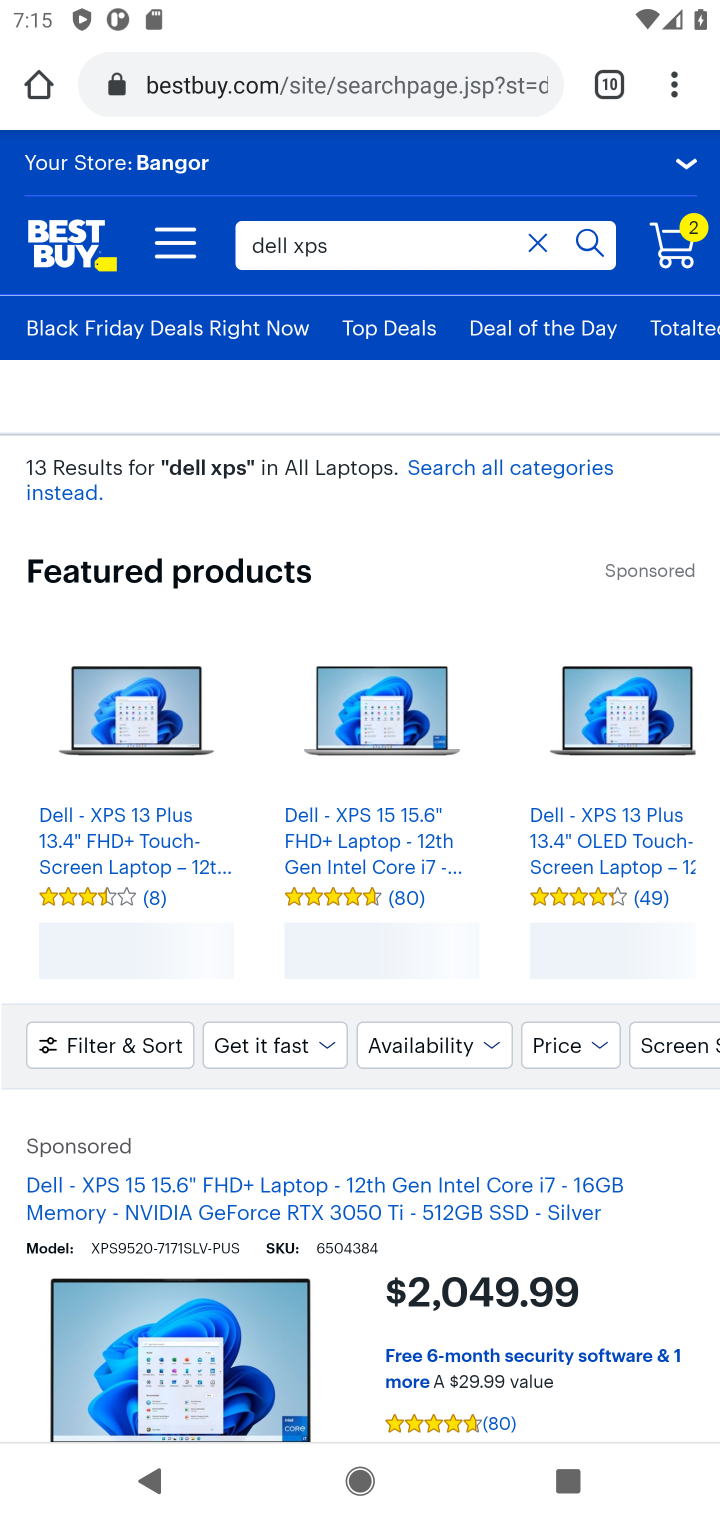
Step 30: press enter
Your task to perform on an android device: Add "dell xps" to the cart on bestbuy, then select checkout. Image 31: 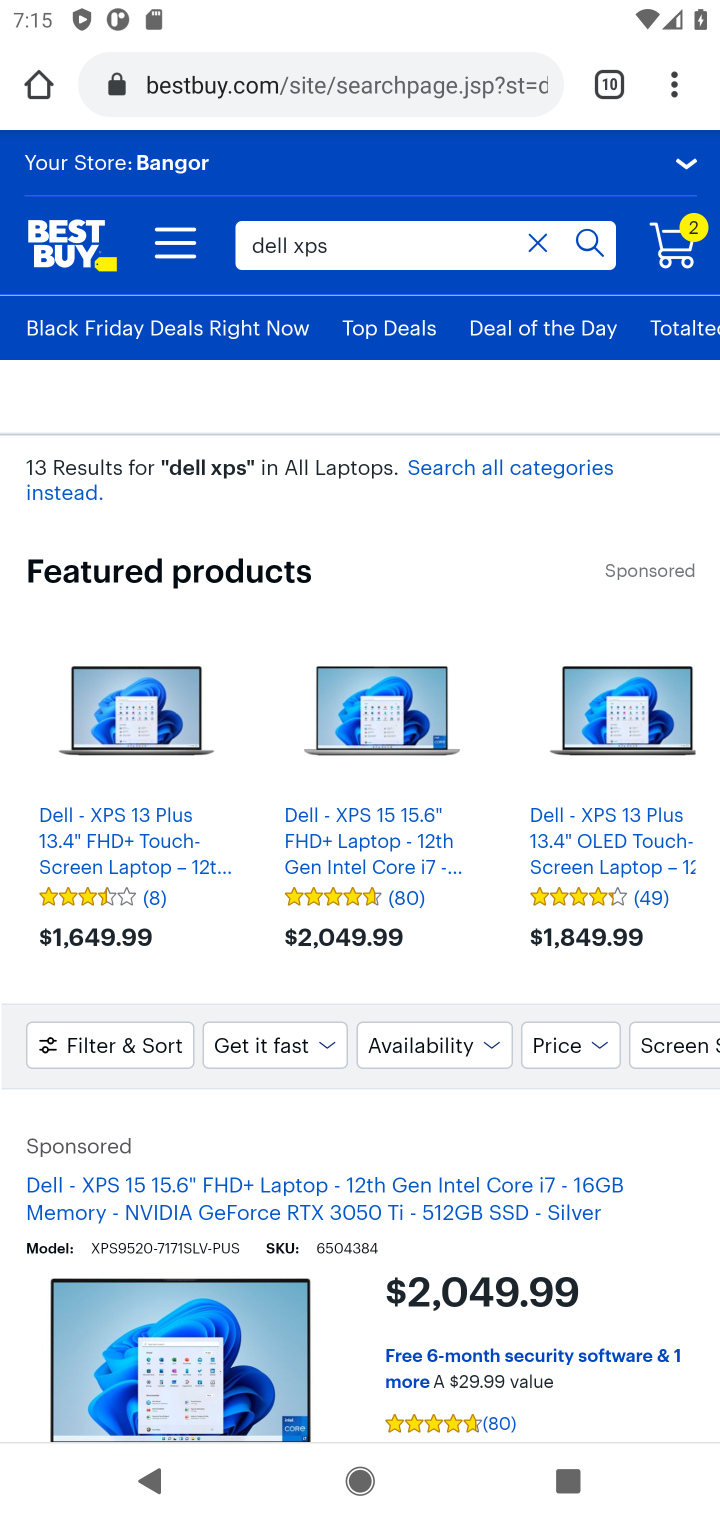
Step 31: click (166, 851)
Your task to perform on an android device: Add "dell xps" to the cart on bestbuy, then select checkout. Image 32: 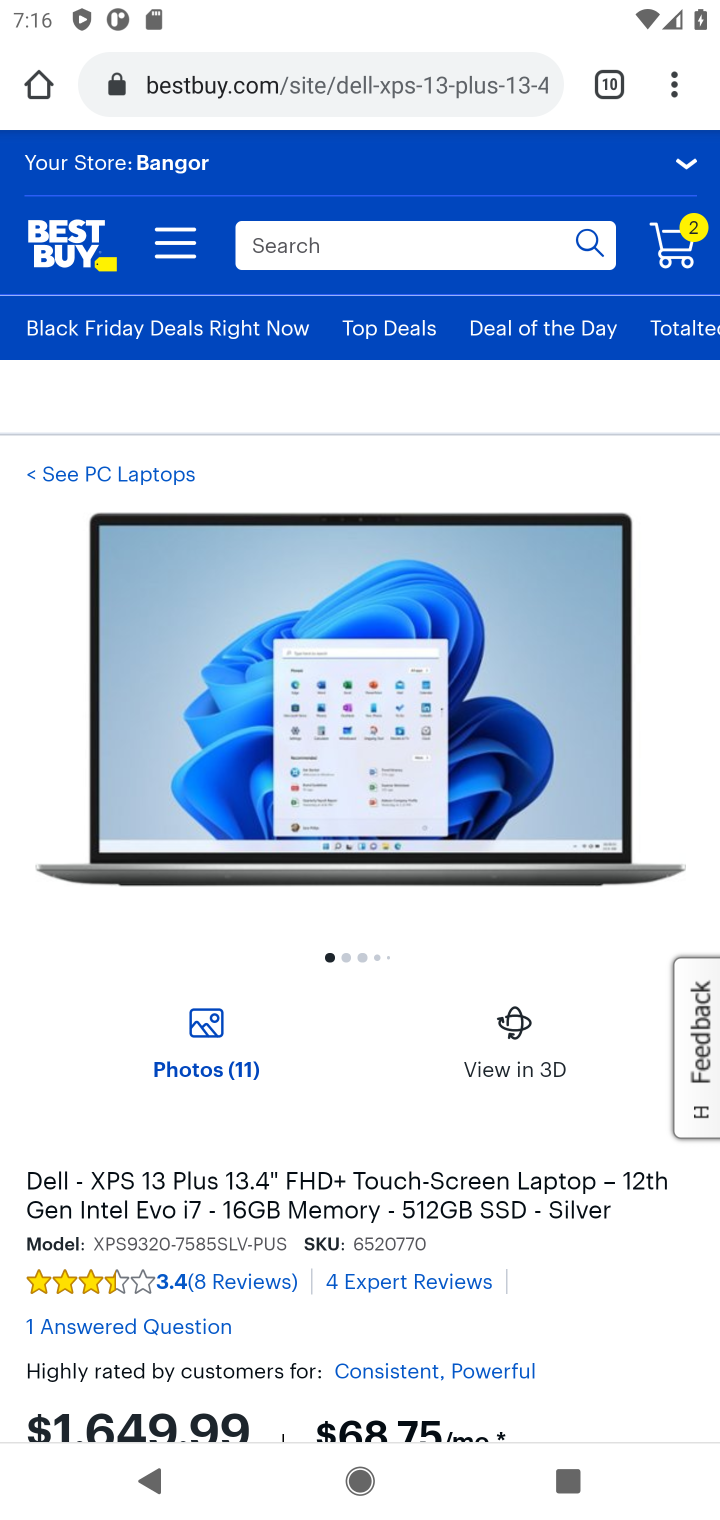
Step 32: task complete